Your task to perform on an android device: Clear the shopping cart on bestbuy. Image 0: 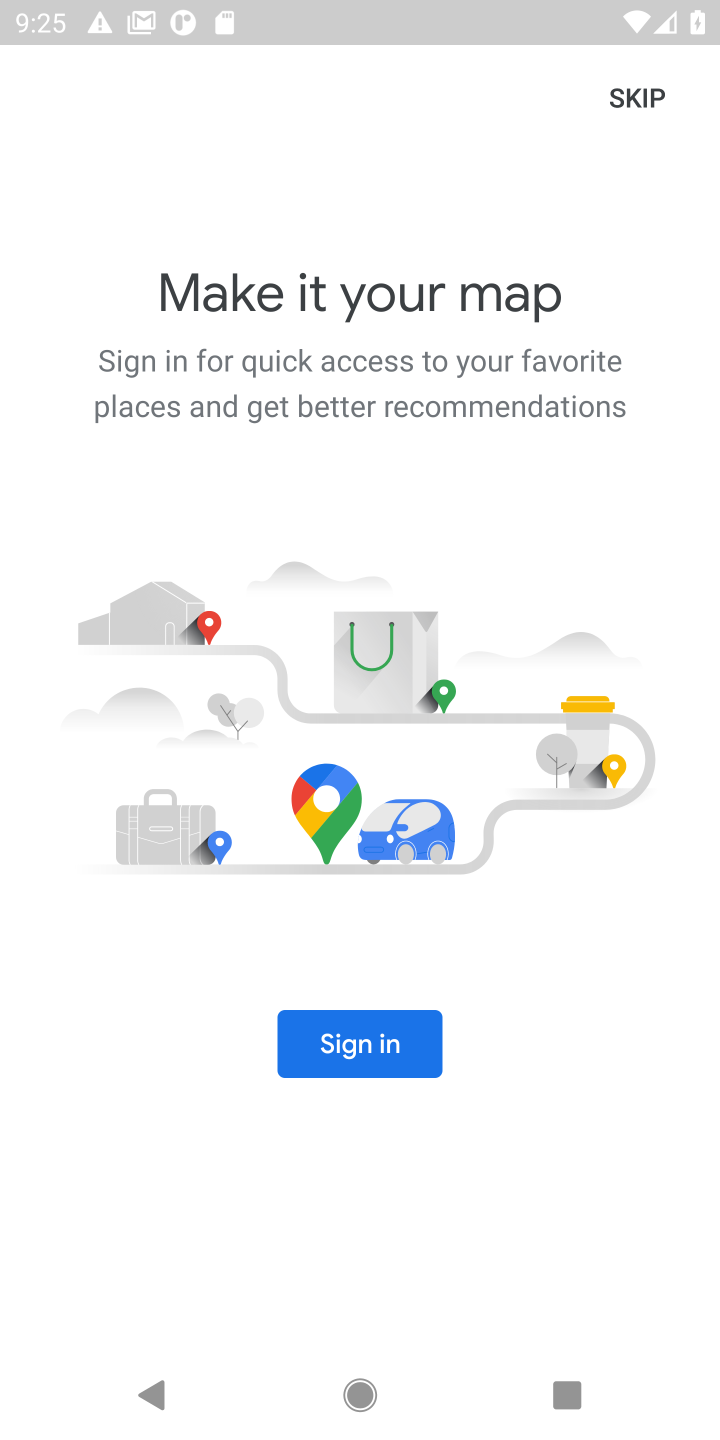
Step 0: press home button
Your task to perform on an android device: Clear the shopping cart on bestbuy. Image 1: 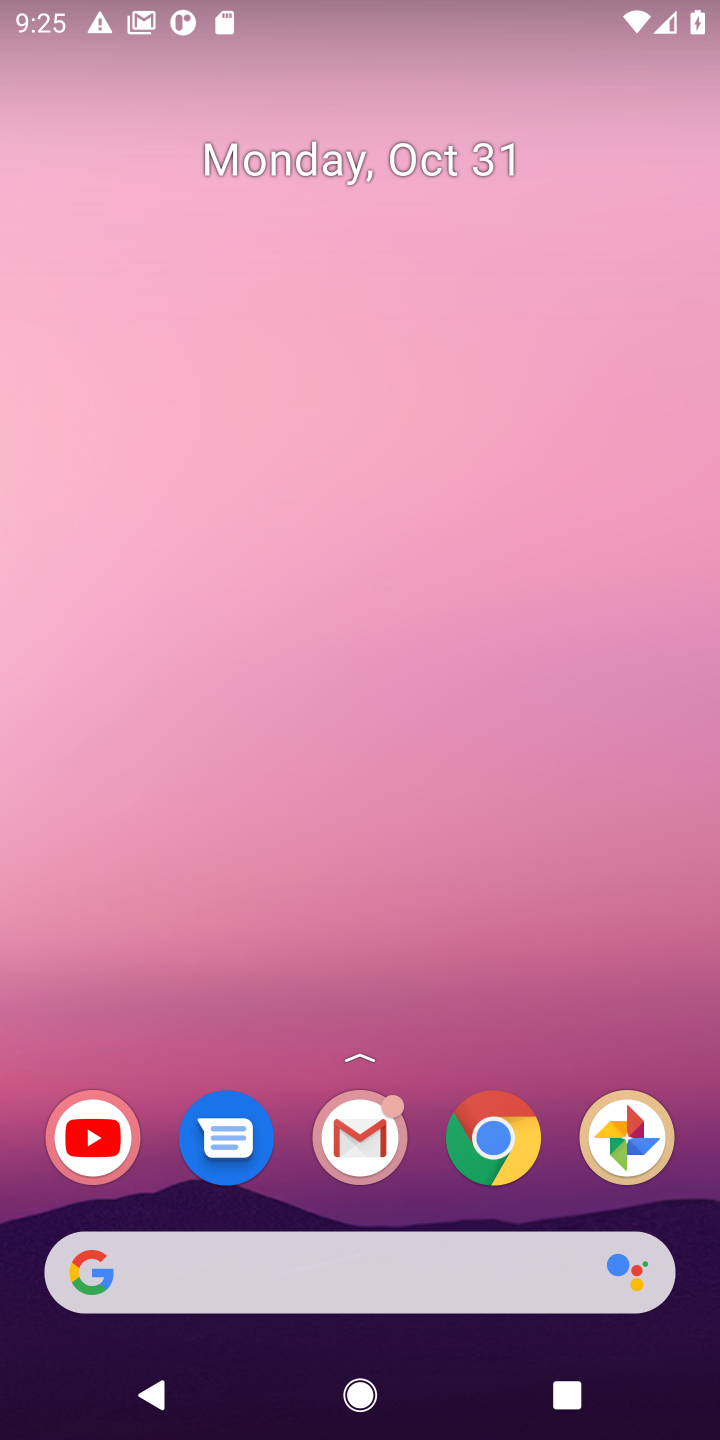
Step 1: drag from (494, 1376) to (454, 69)
Your task to perform on an android device: Clear the shopping cart on bestbuy. Image 2: 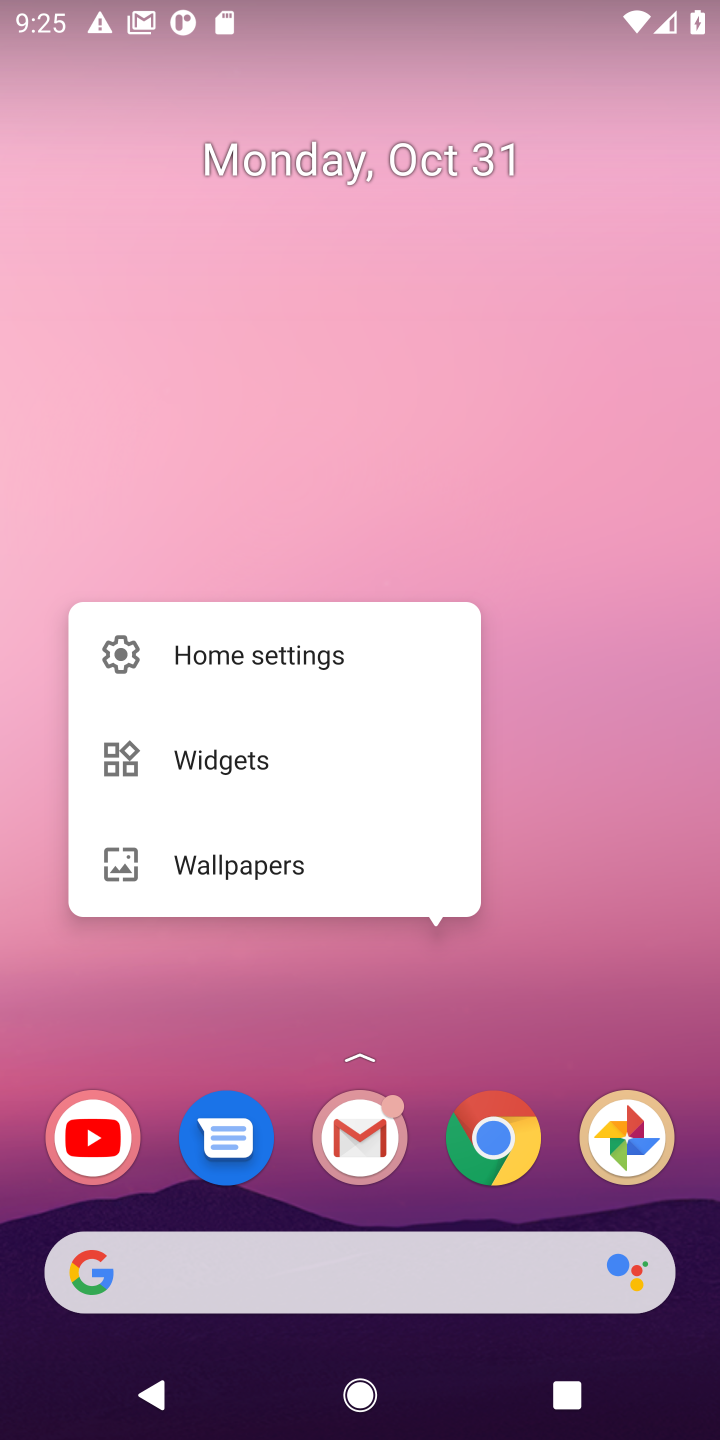
Step 2: click (510, 509)
Your task to perform on an android device: Clear the shopping cart on bestbuy. Image 3: 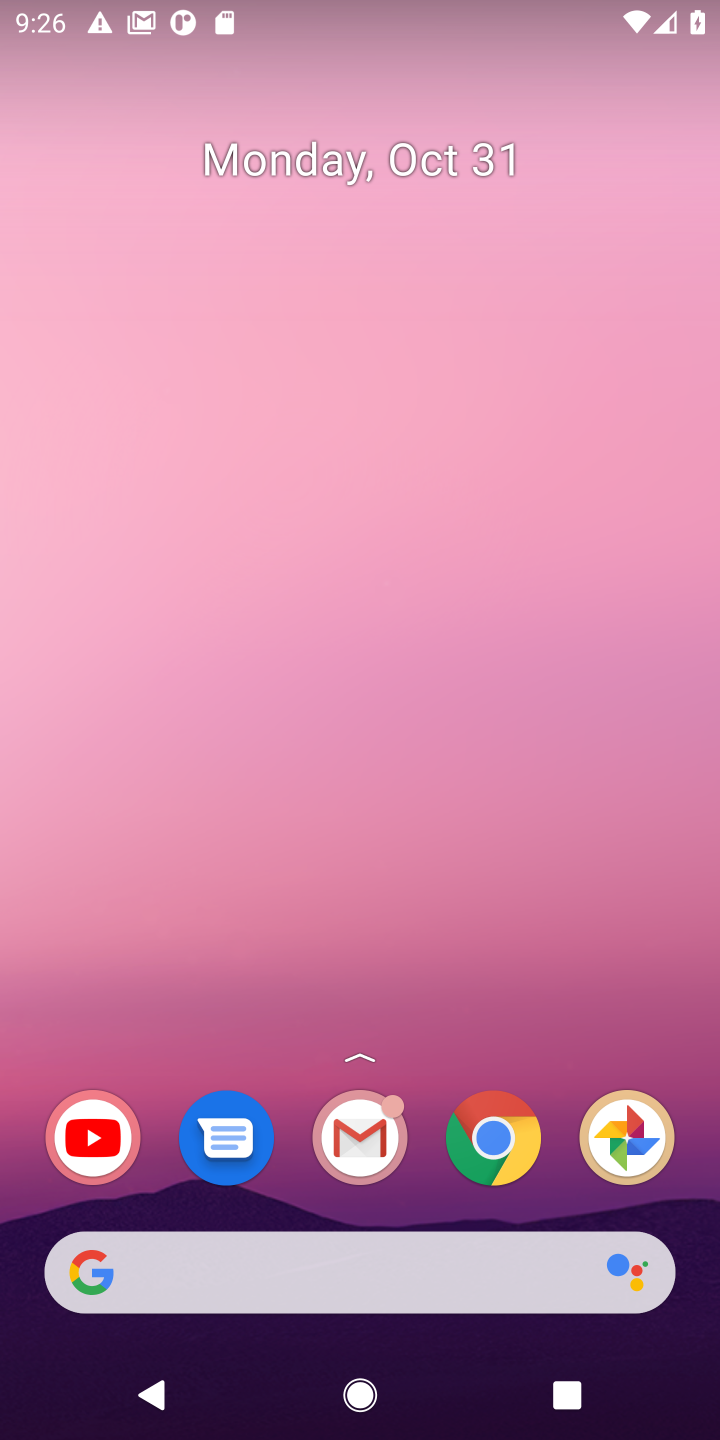
Step 3: drag from (428, 1201) to (492, 173)
Your task to perform on an android device: Clear the shopping cart on bestbuy. Image 4: 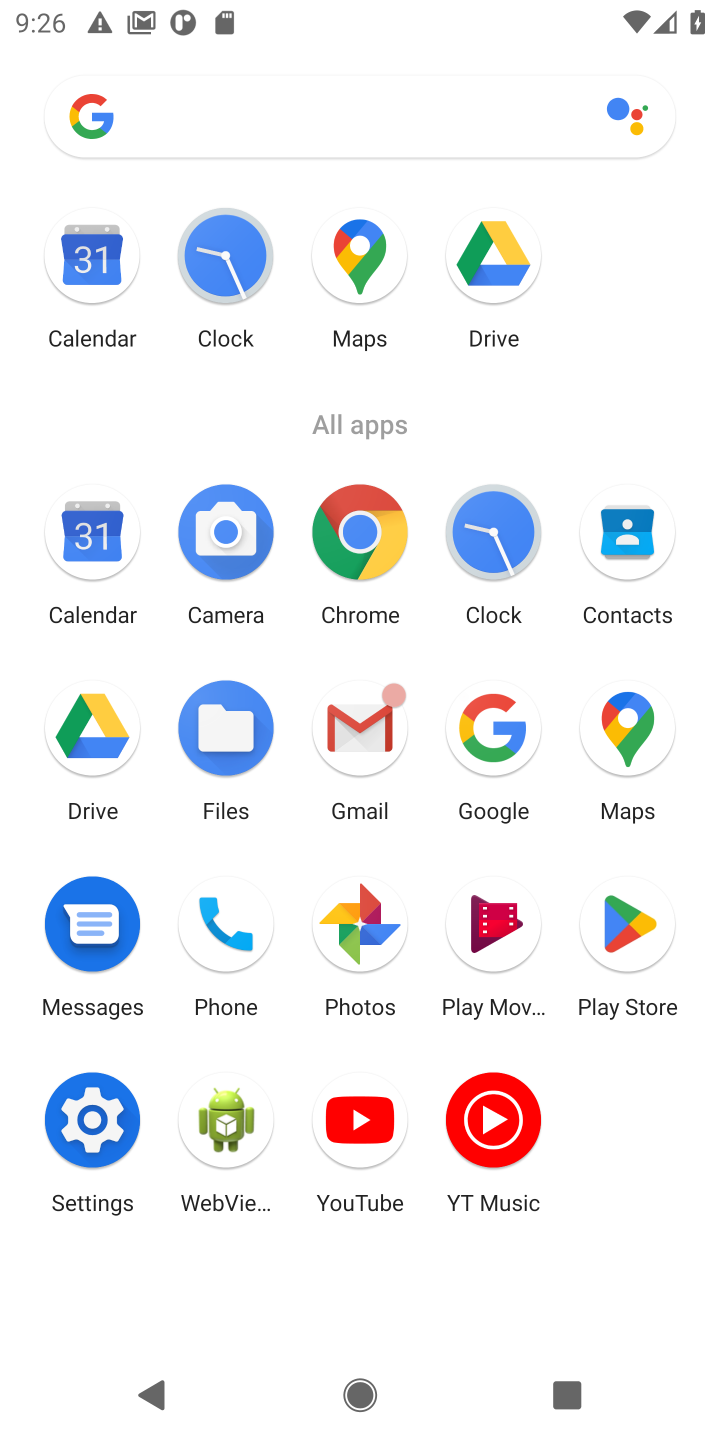
Step 4: click (354, 541)
Your task to perform on an android device: Clear the shopping cart on bestbuy. Image 5: 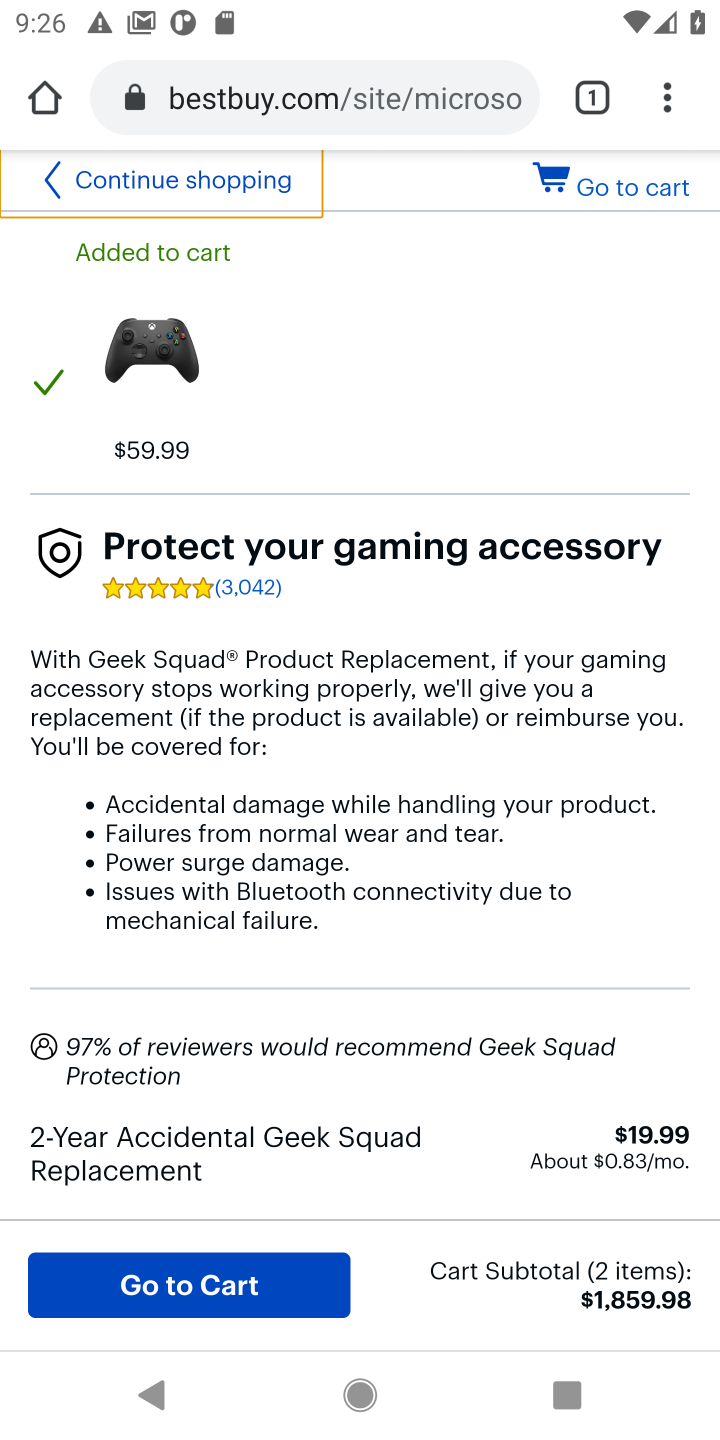
Step 5: drag from (488, 354) to (438, 914)
Your task to perform on an android device: Clear the shopping cart on bestbuy. Image 6: 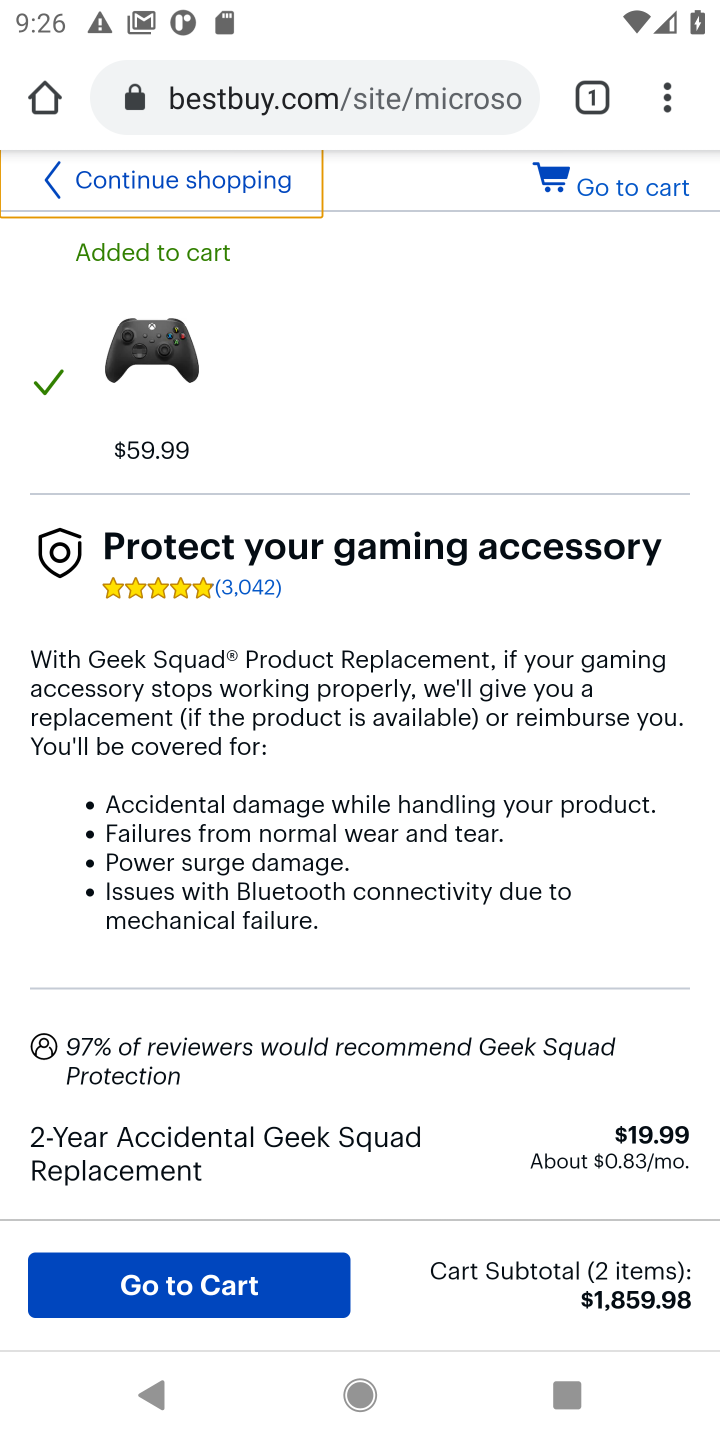
Step 6: click (631, 171)
Your task to perform on an android device: Clear the shopping cart on bestbuy. Image 7: 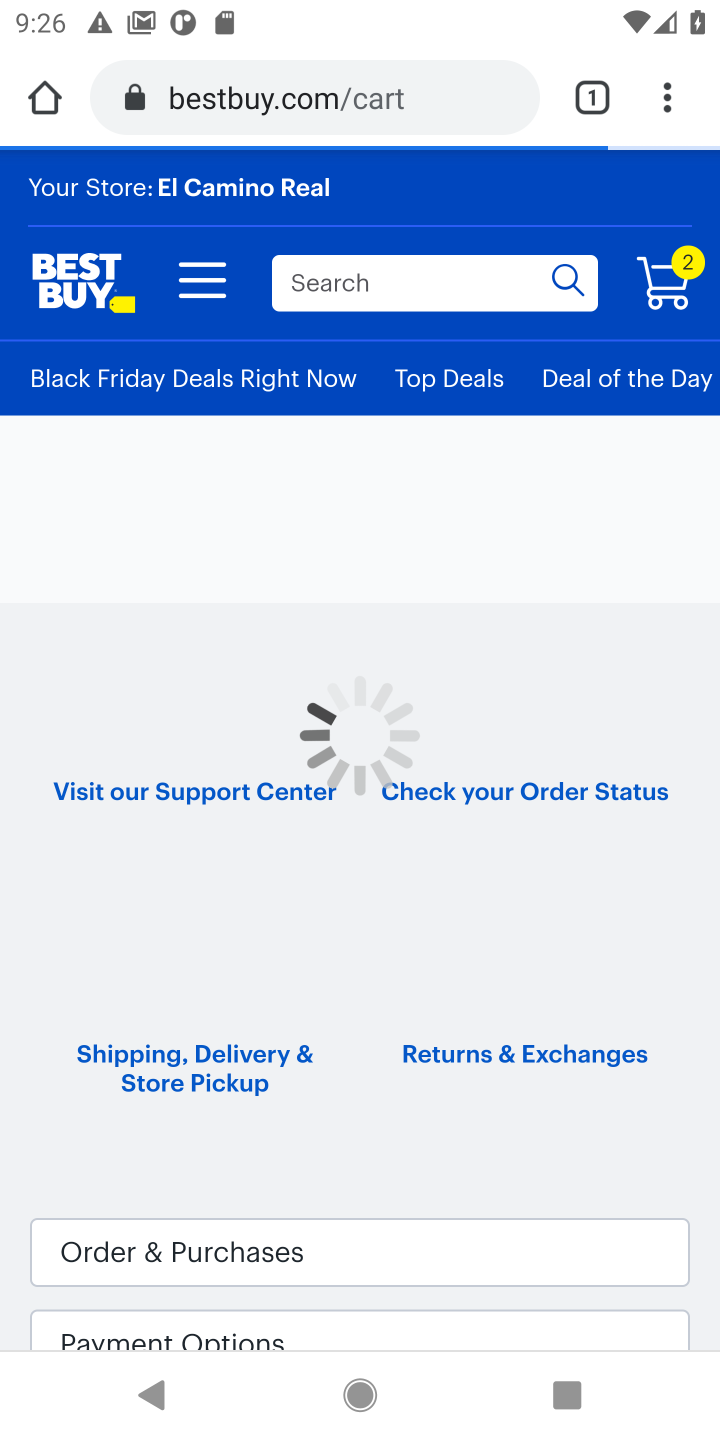
Step 7: click (670, 268)
Your task to perform on an android device: Clear the shopping cart on bestbuy. Image 8: 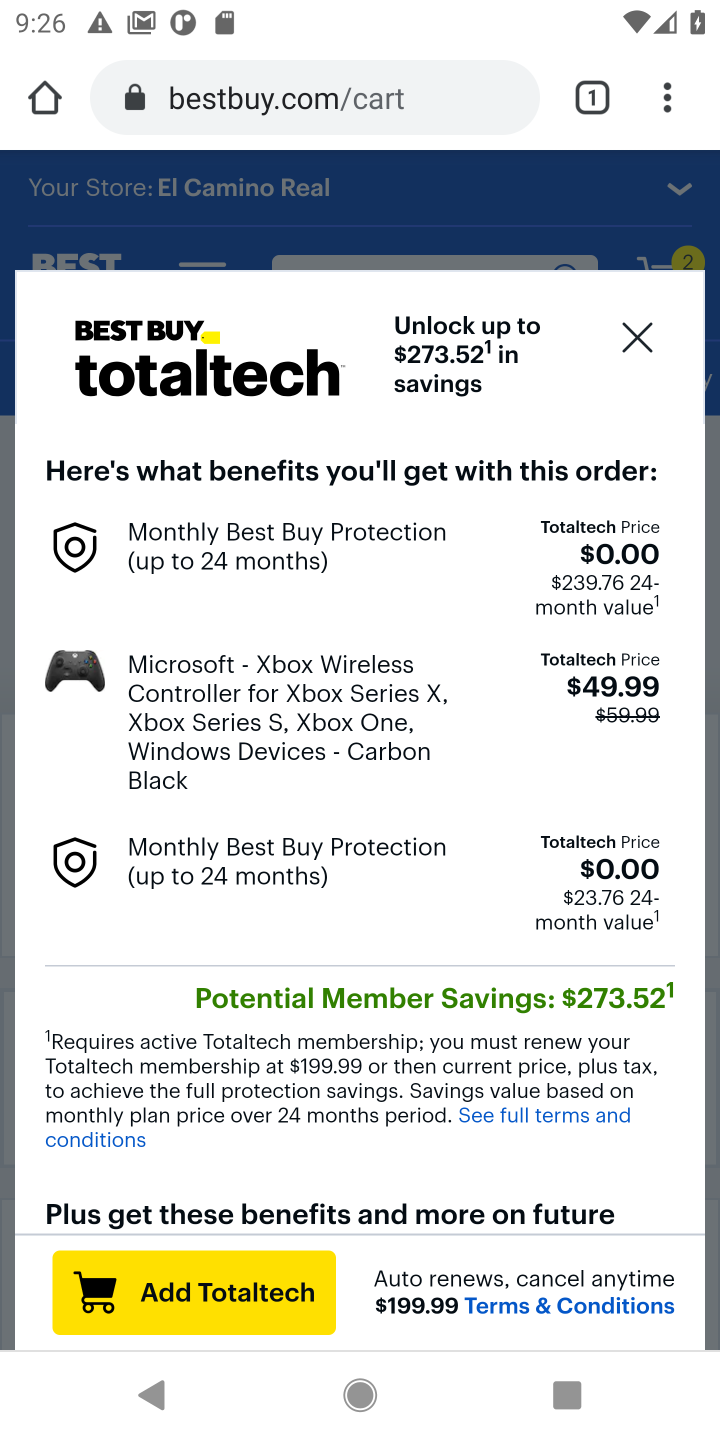
Step 8: click (631, 336)
Your task to perform on an android device: Clear the shopping cart on bestbuy. Image 9: 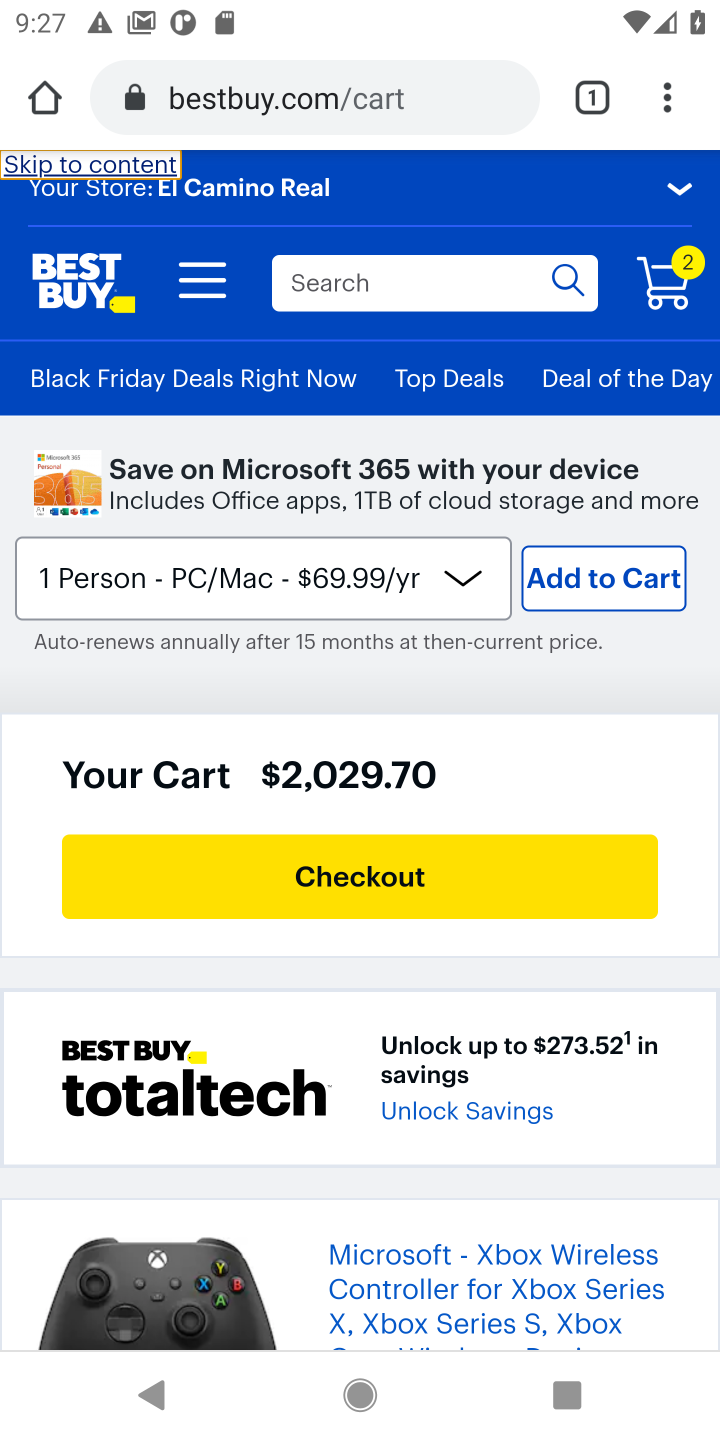
Step 9: drag from (454, 988) to (433, 420)
Your task to perform on an android device: Clear the shopping cart on bestbuy. Image 10: 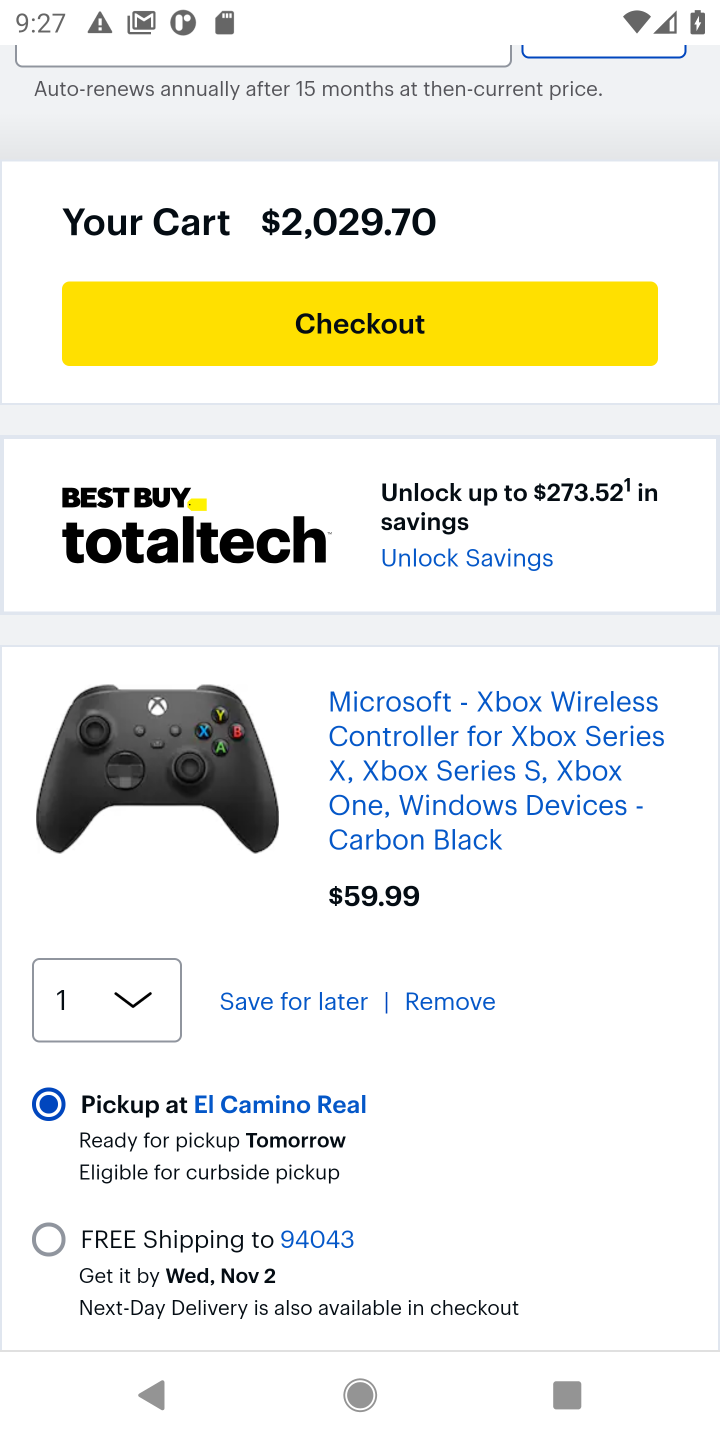
Step 10: drag from (474, 996) to (388, 211)
Your task to perform on an android device: Clear the shopping cart on bestbuy. Image 11: 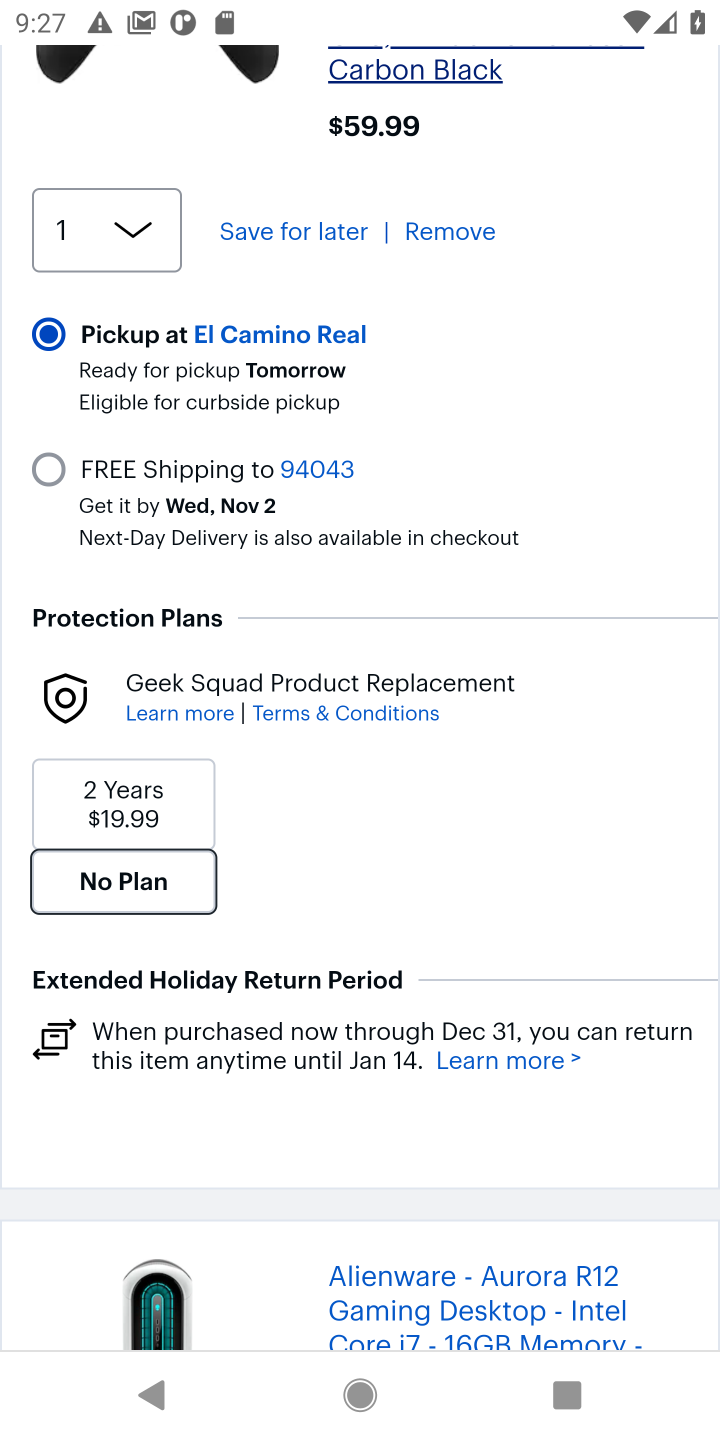
Step 11: drag from (381, 1019) to (372, 1201)
Your task to perform on an android device: Clear the shopping cart on bestbuy. Image 12: 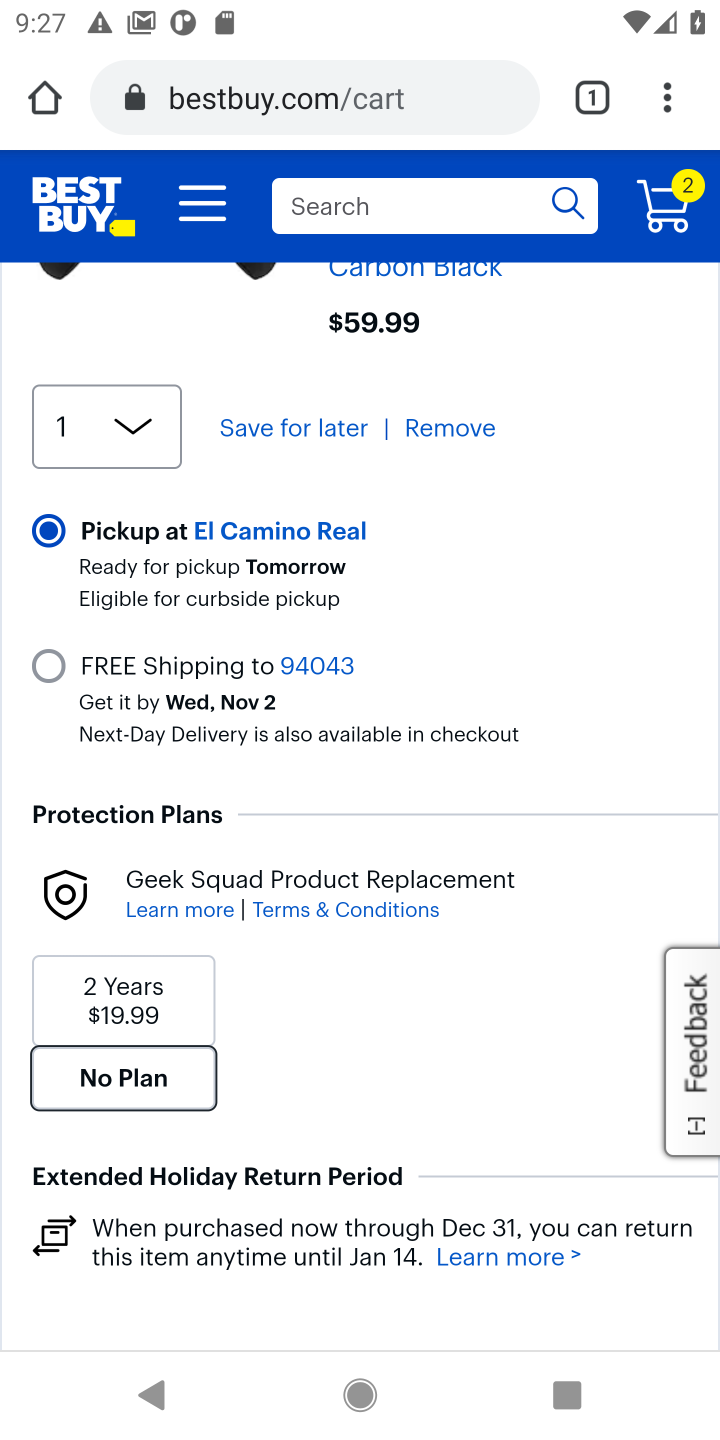
Step 12: drag from (450, 488) to (472, 1186)
Your task to perform on an android device: Clear the shopping cart on bestbuy. Image 13: 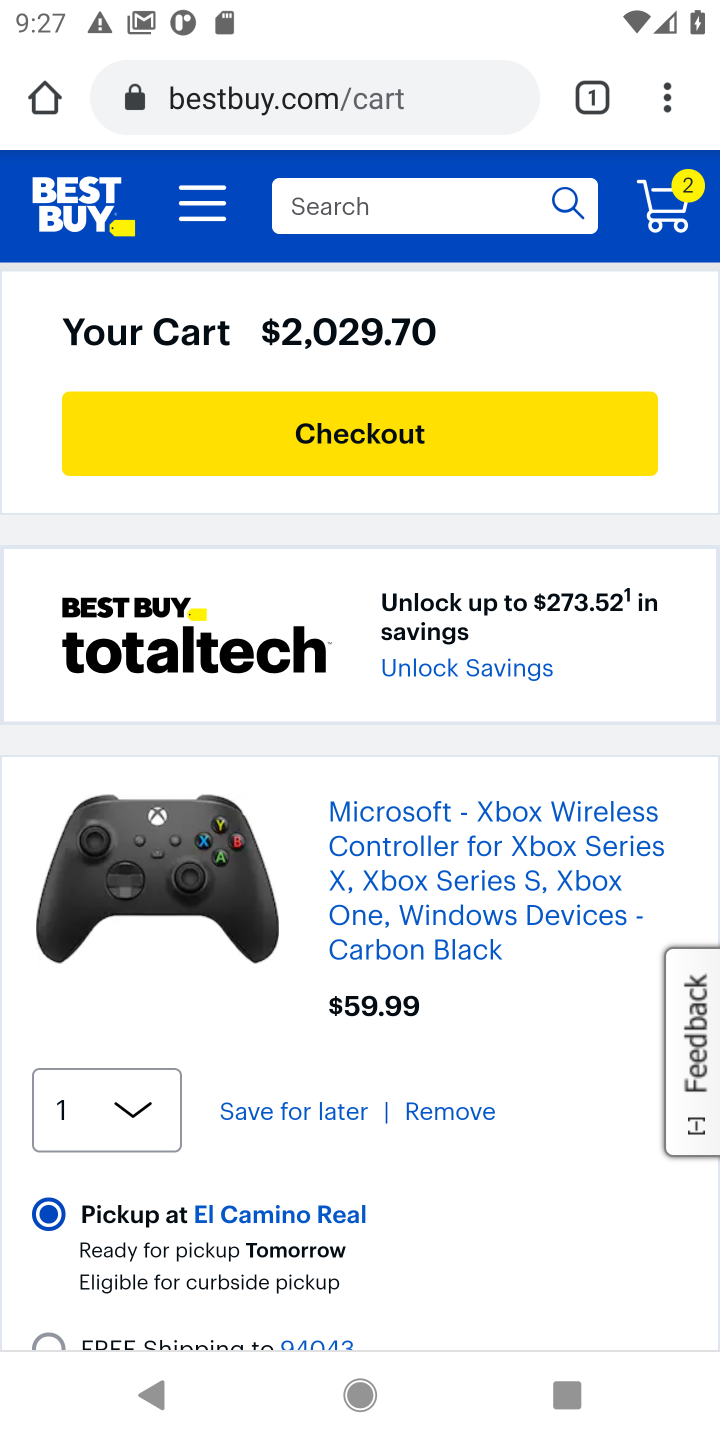
Step 13: drag from (497, 1072) to (512, 517)
Your task to perform on an android device: Clear the shopping cart on bestbuy. Image 14: 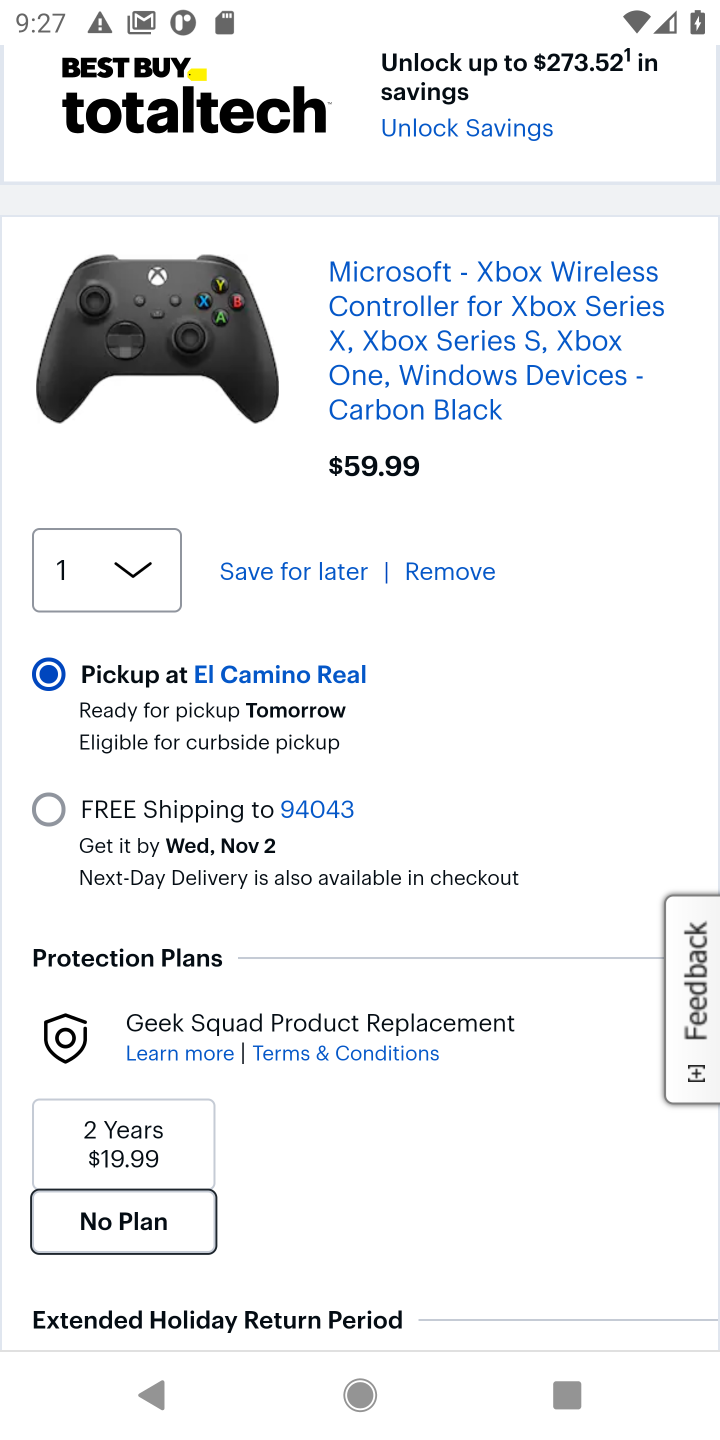
Step 14: drag from (418, 1152) to (394, 471)
Your task to perform on an android device: Clear the shopping cart on bestbuy. Image 15: 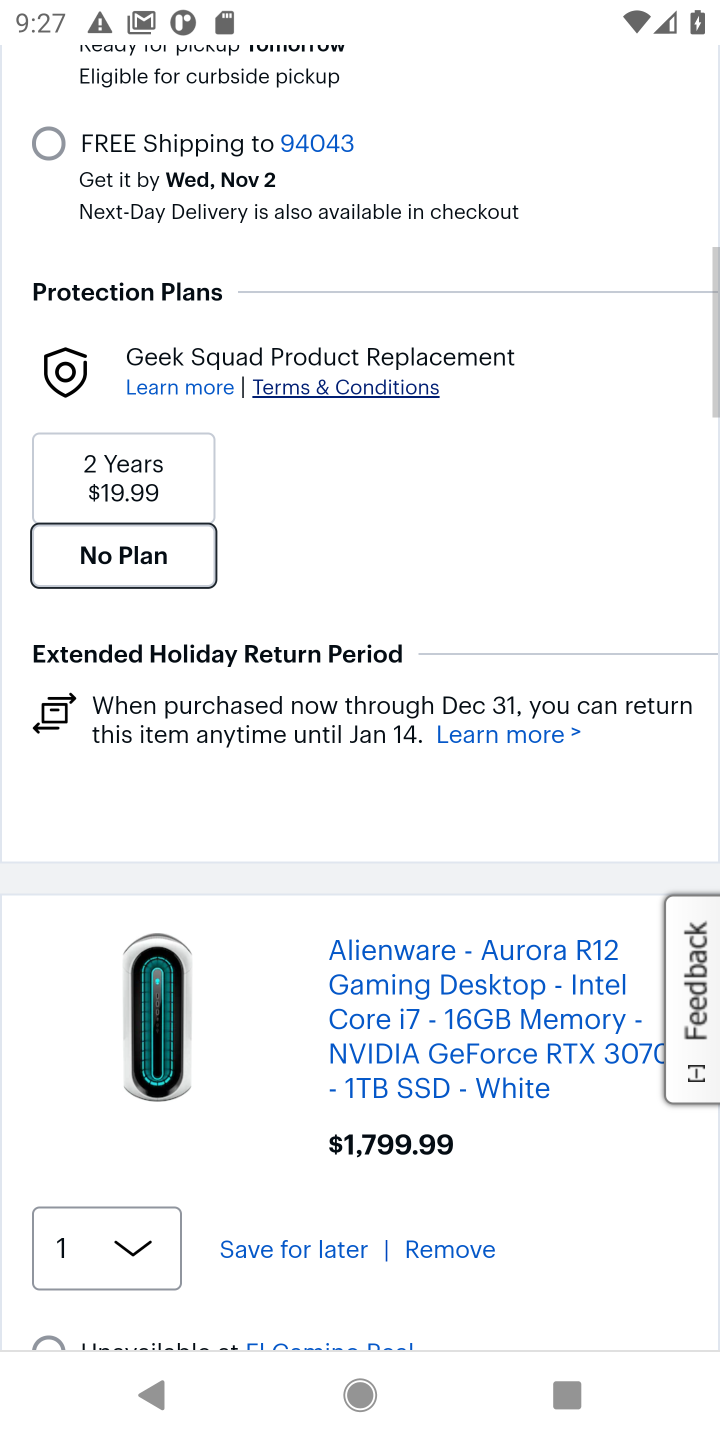
Step 15: drag from (397, 949) to (428, 335)
Your task to perform on an android device: Clear the shopping cart on bestbuy. Image 16: 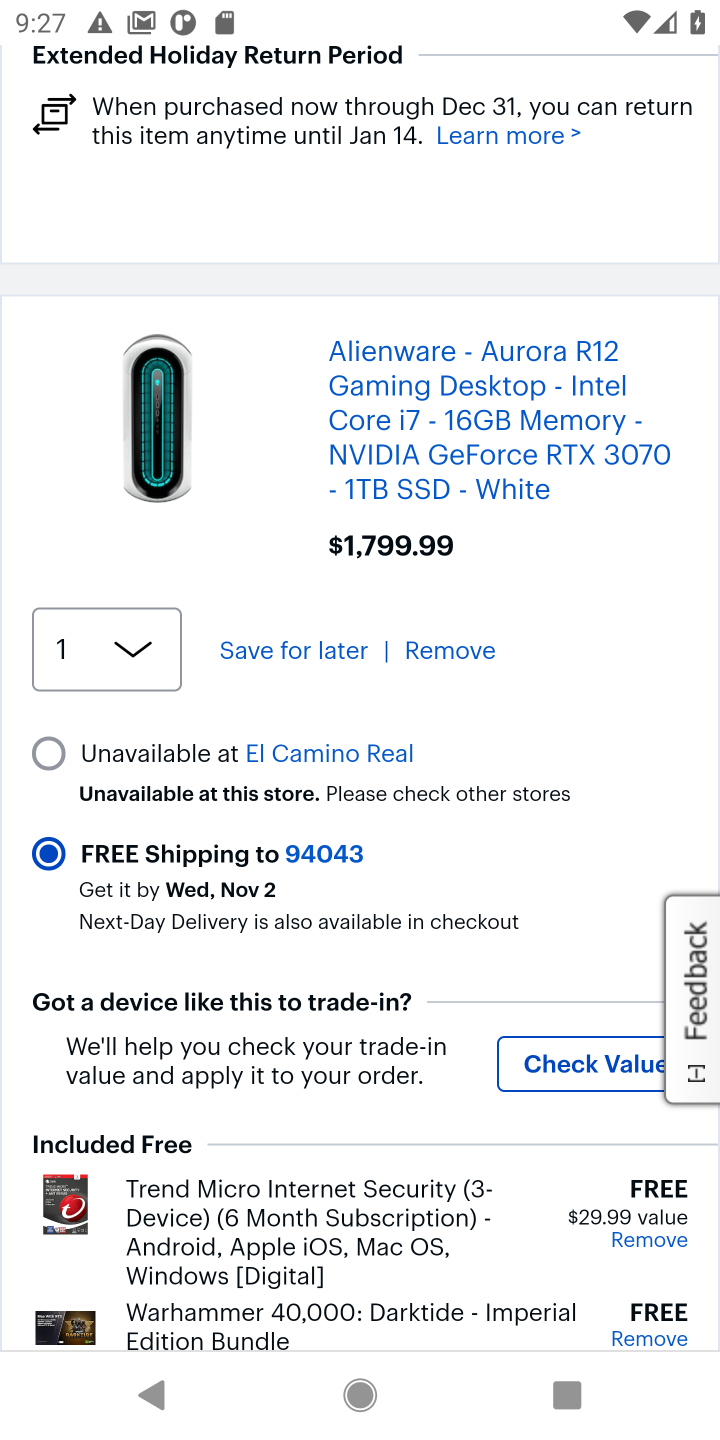
Step 16: drag from (321, 1007) to (332, 607)
Your task to perform on an android device: Clear the shopping cart on bestbuy. Image 17: 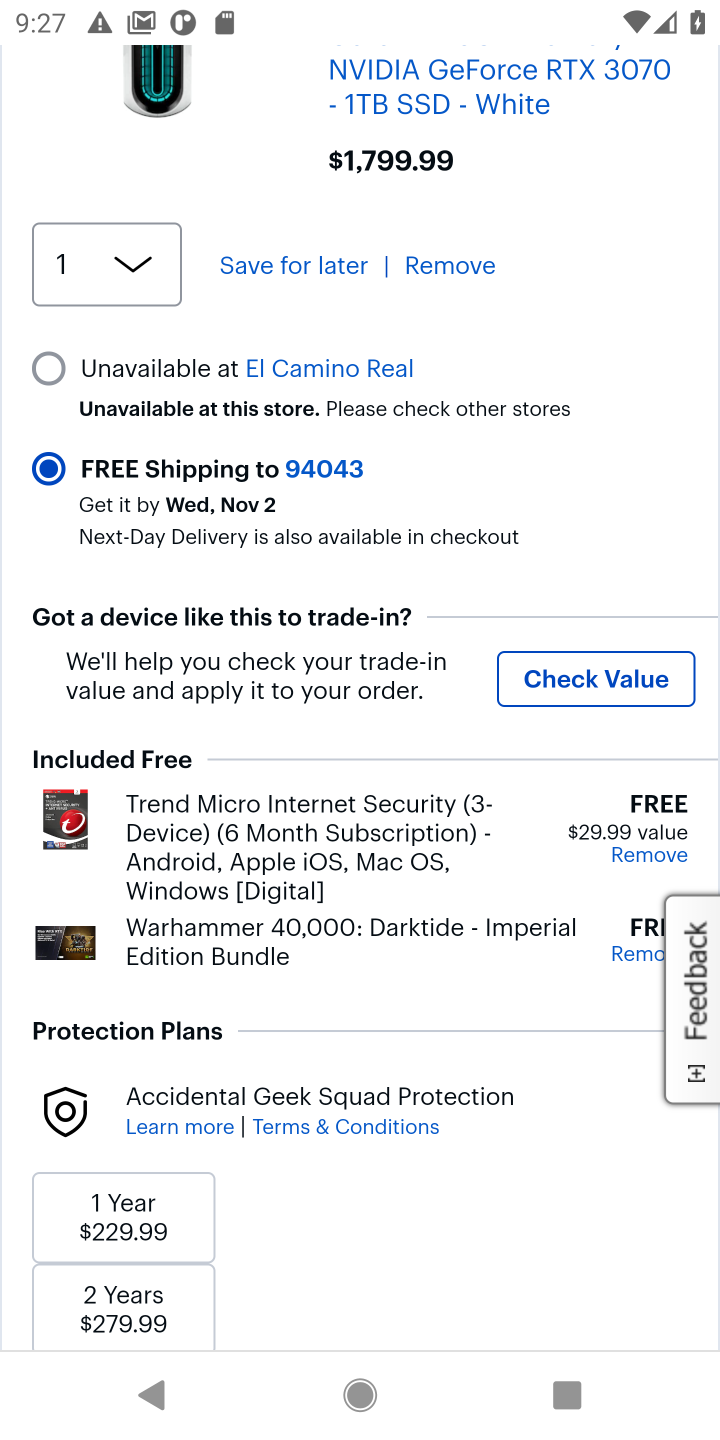
Step 17: drag from (230, 929) to (344, 314)
Your task to perform on an android device: Clear the shopping cart on bestbuy. Image 18: 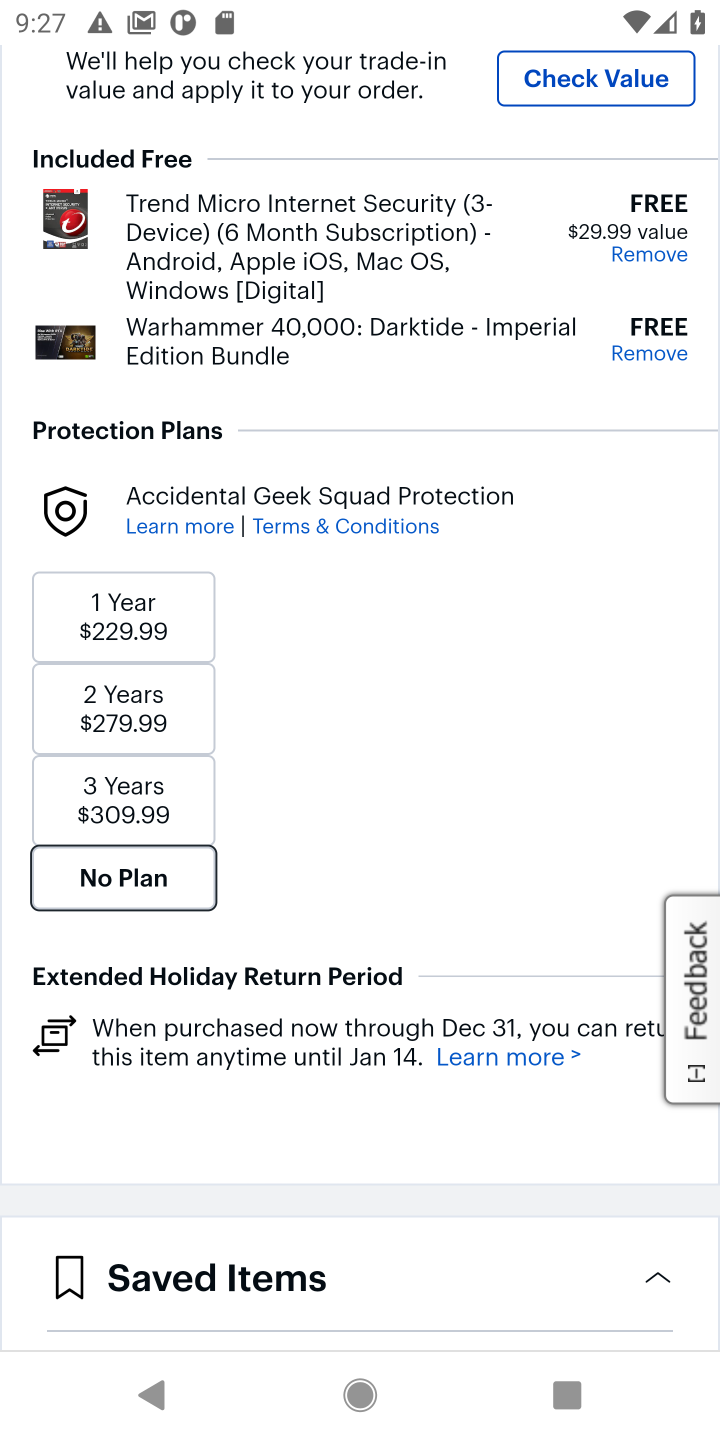
Step 18: drag from (281, 1104) to (436, 285)
Your task to perform on an android device: Clear the shopping cart on bestbuy. Image 19: 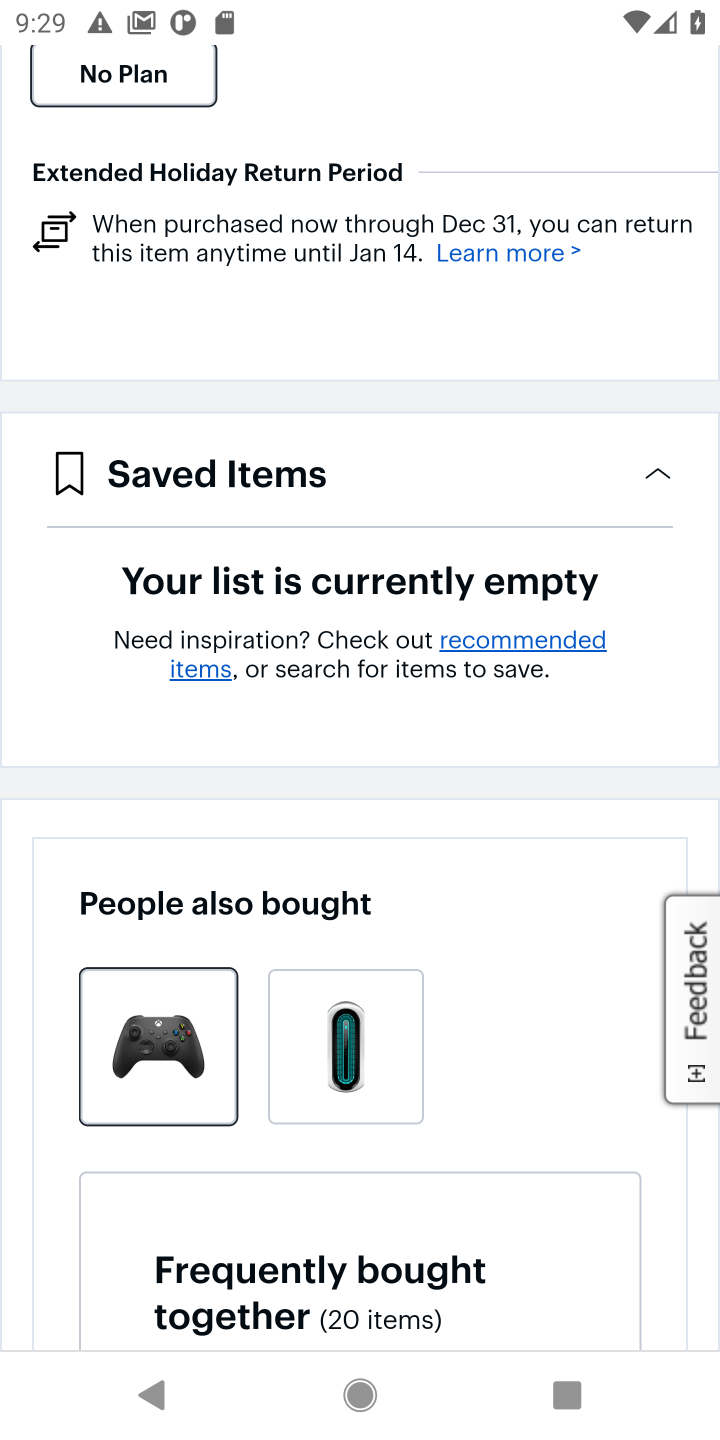
Step 19: drag from (404, 439) to (450, 1266)
Your task to perform on an android device: Clear the shopping cart on bestbuy. Image 20: 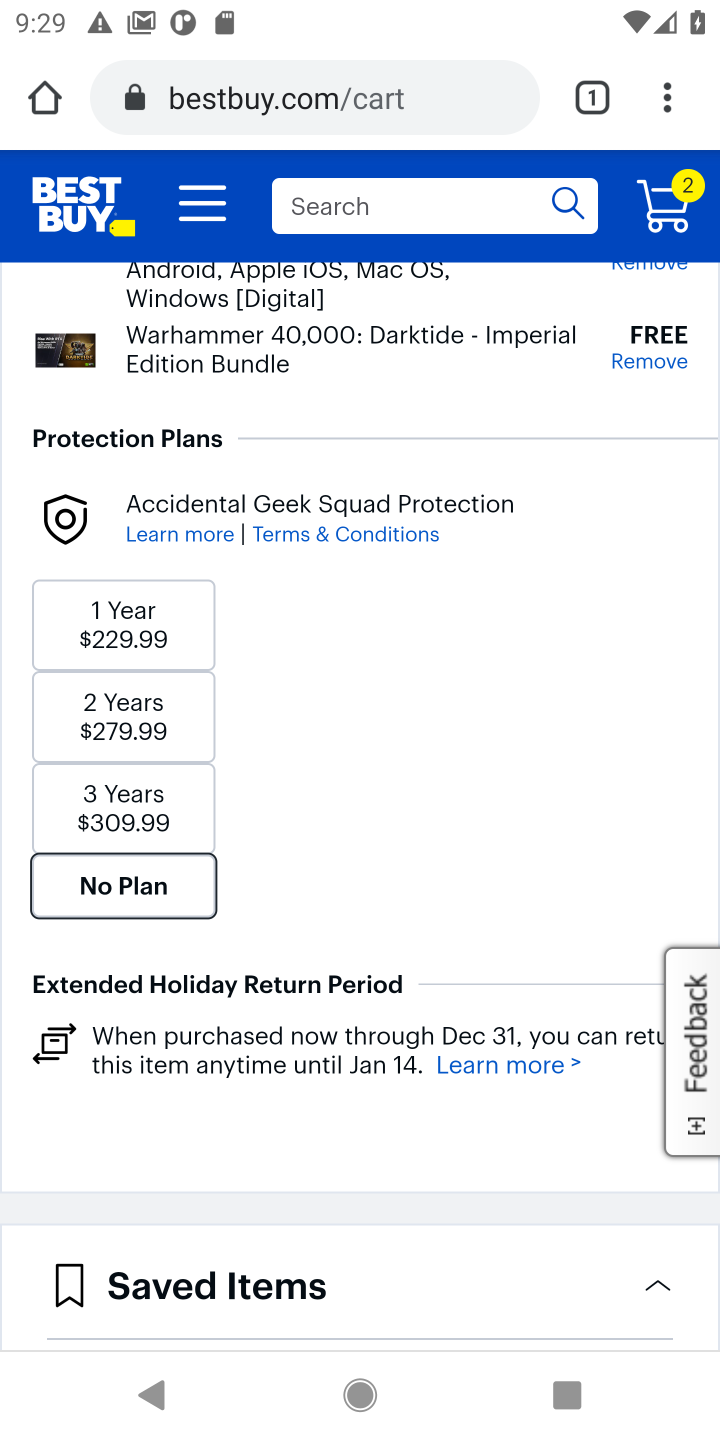
Step 20: drag from (512, 585) to (537, 1401)
Your task to perform on an android device: Clear the shopping cart on bestbuy. Image 21: 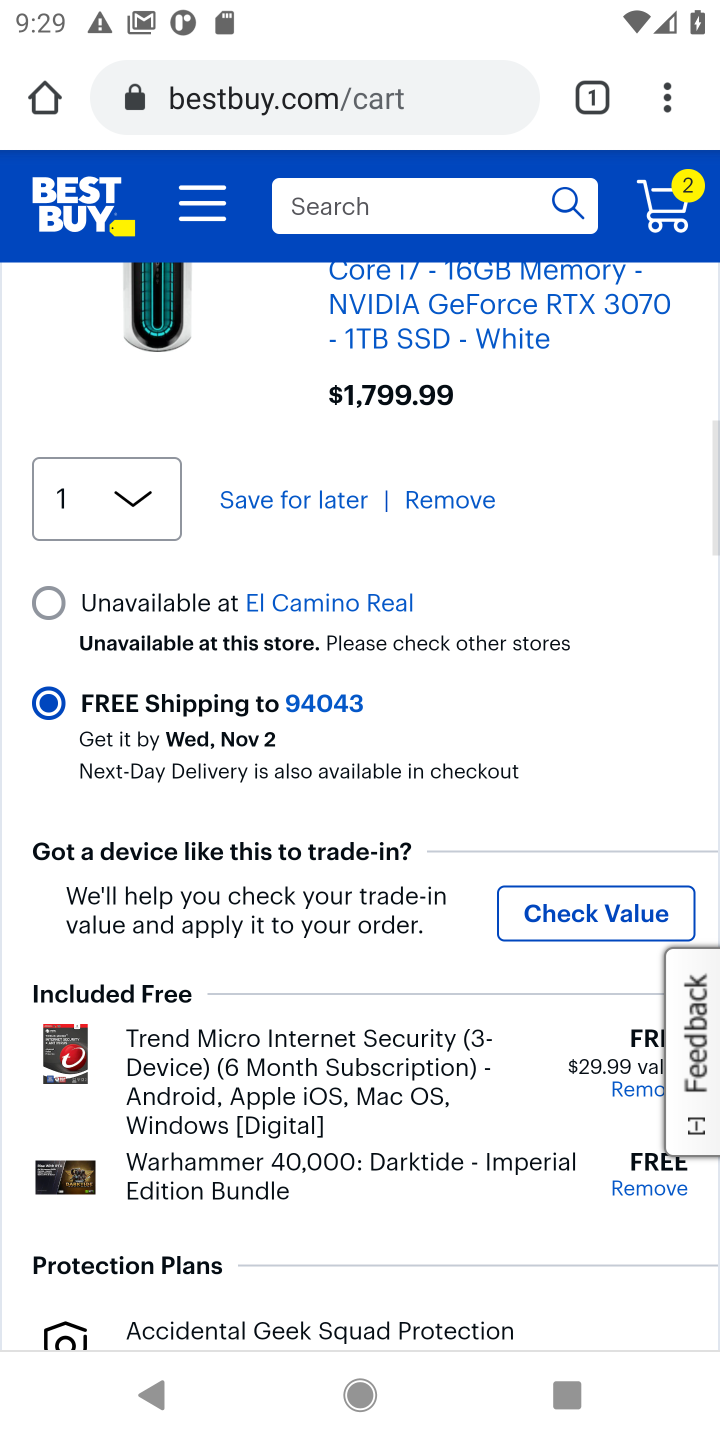
Step 21: drag from (391, 1143) to (395, 1306)
Your task to perform on an android device: Clear the shopping cart on bestbuy. Image 22: 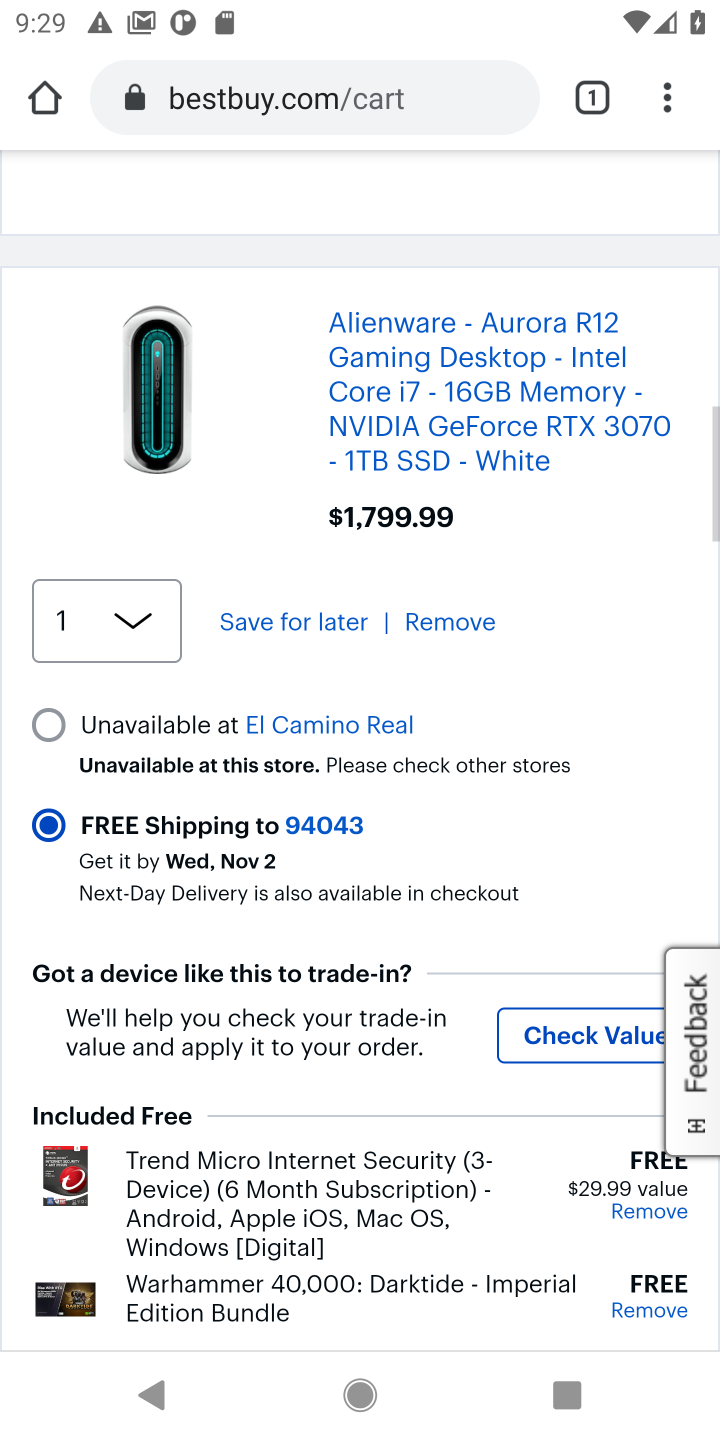
Step 22: drag from (369, 597) to (364, 1051)
Your task to perform on an android device: Clear the shopping cart on bestbuy. Image 23: 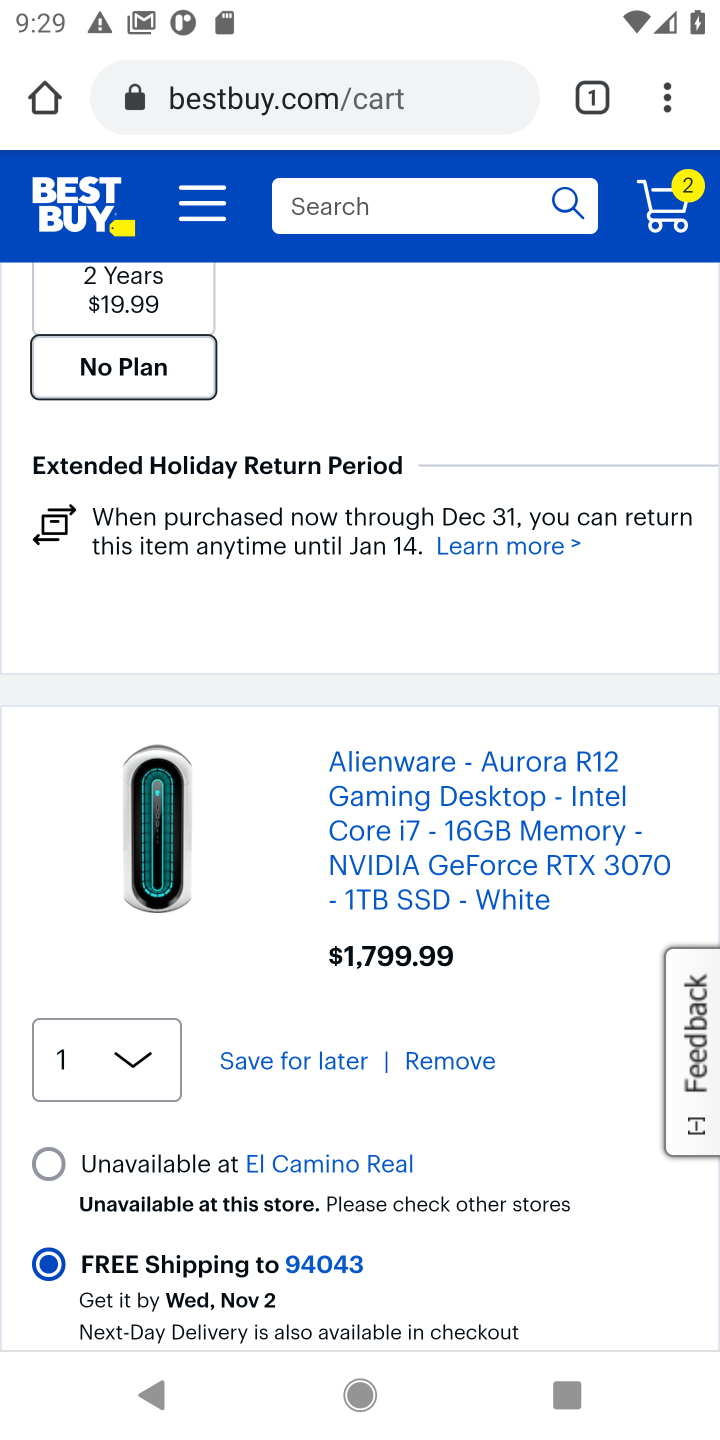
Step 23: drag from (311, 937) to (363, 403)
Your task to perform on an android device: Clear the shopping cart on bestbuy. Image 24: 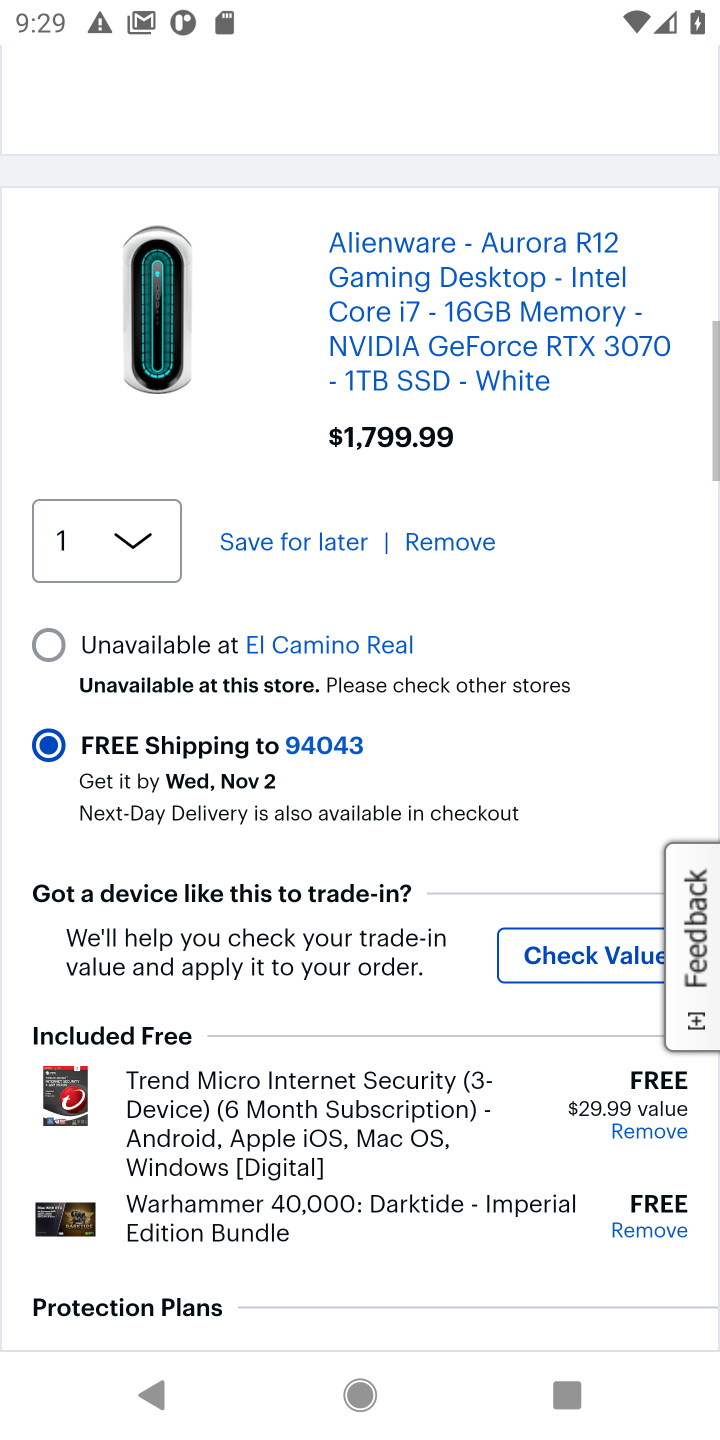
Step 24: drag from (394, 993) to (488, 290)
Your task to perform on an android device: Clear the shopping cart on bestbuy. Image 25: 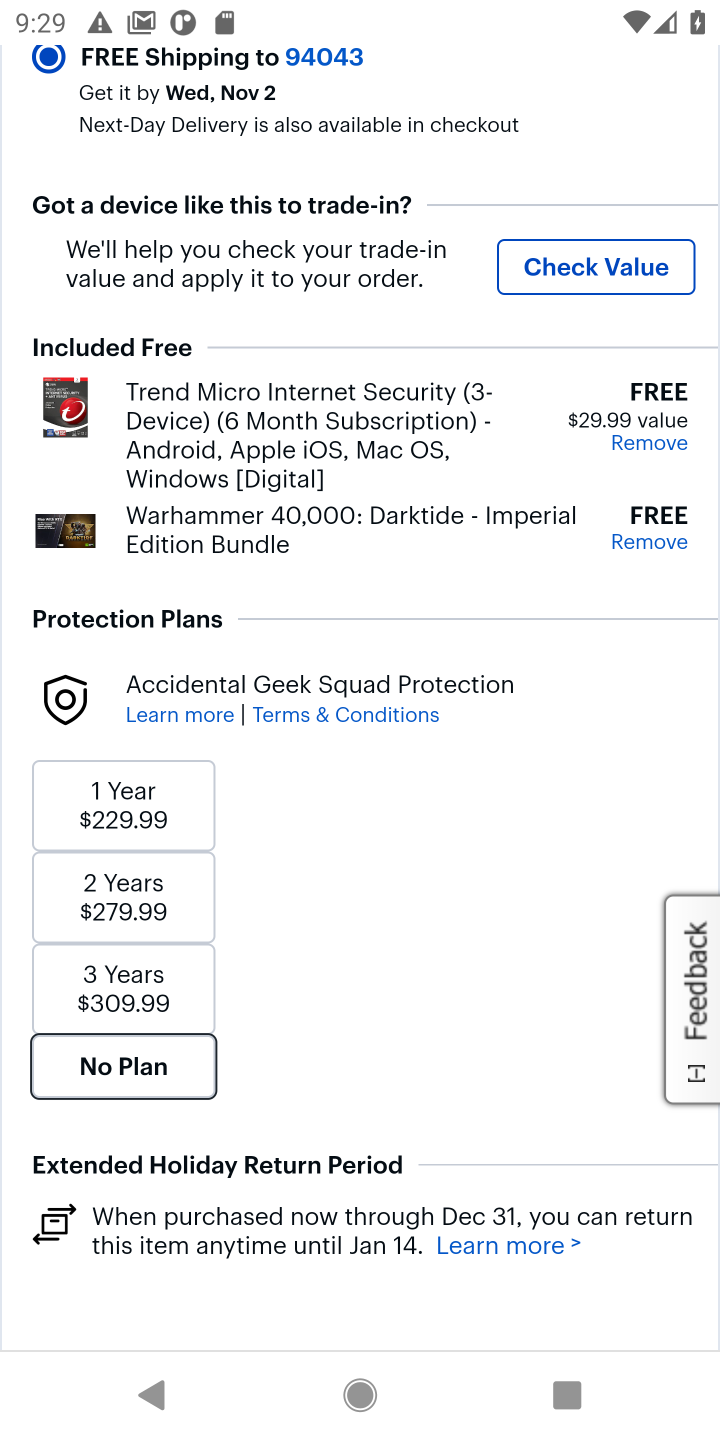
Step 25: drag from (352, 1103) to (488, 220)
Your task to perform on an android device: Clear the shopping cart on bestbuy. Image 26: 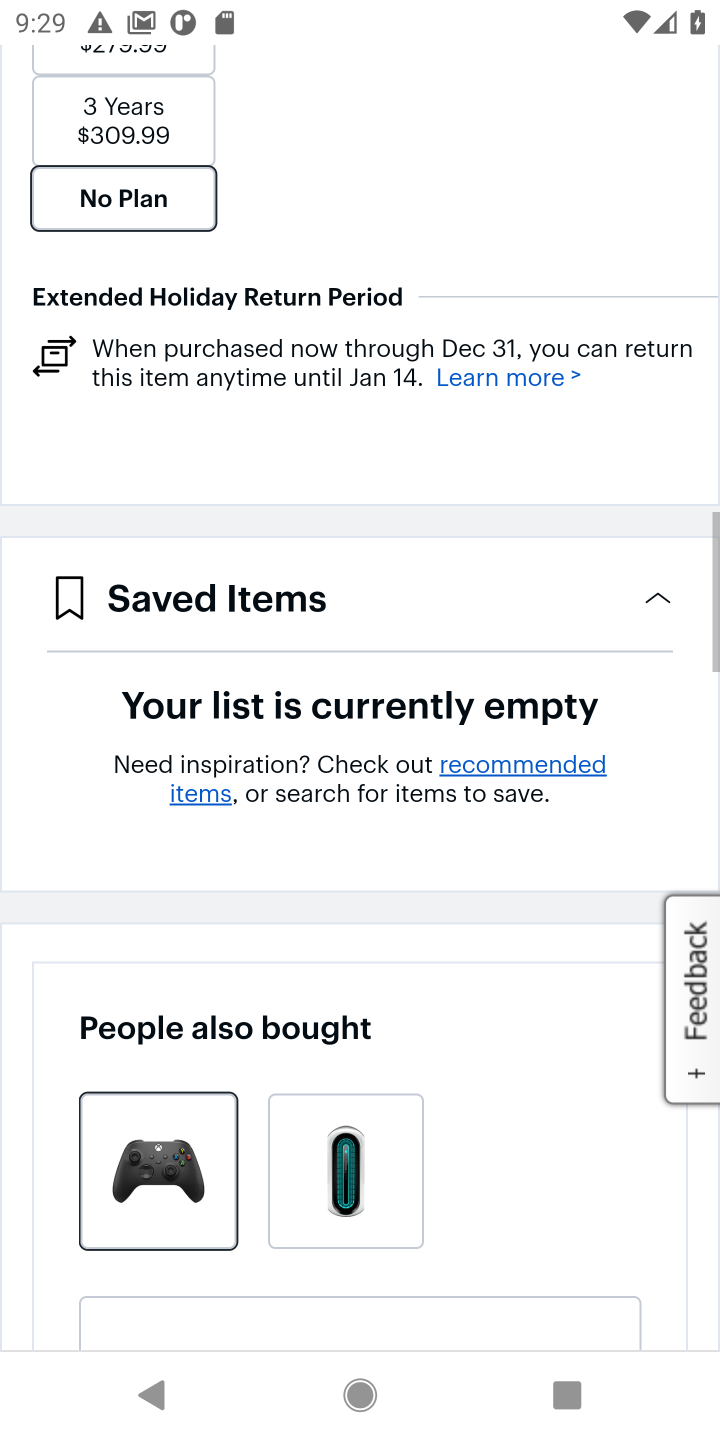
Step 26: drag from (372, 1087) to (525, 395)
Your task to perform on an android device: Clear the shopping cart on bestbuy. Image 27: 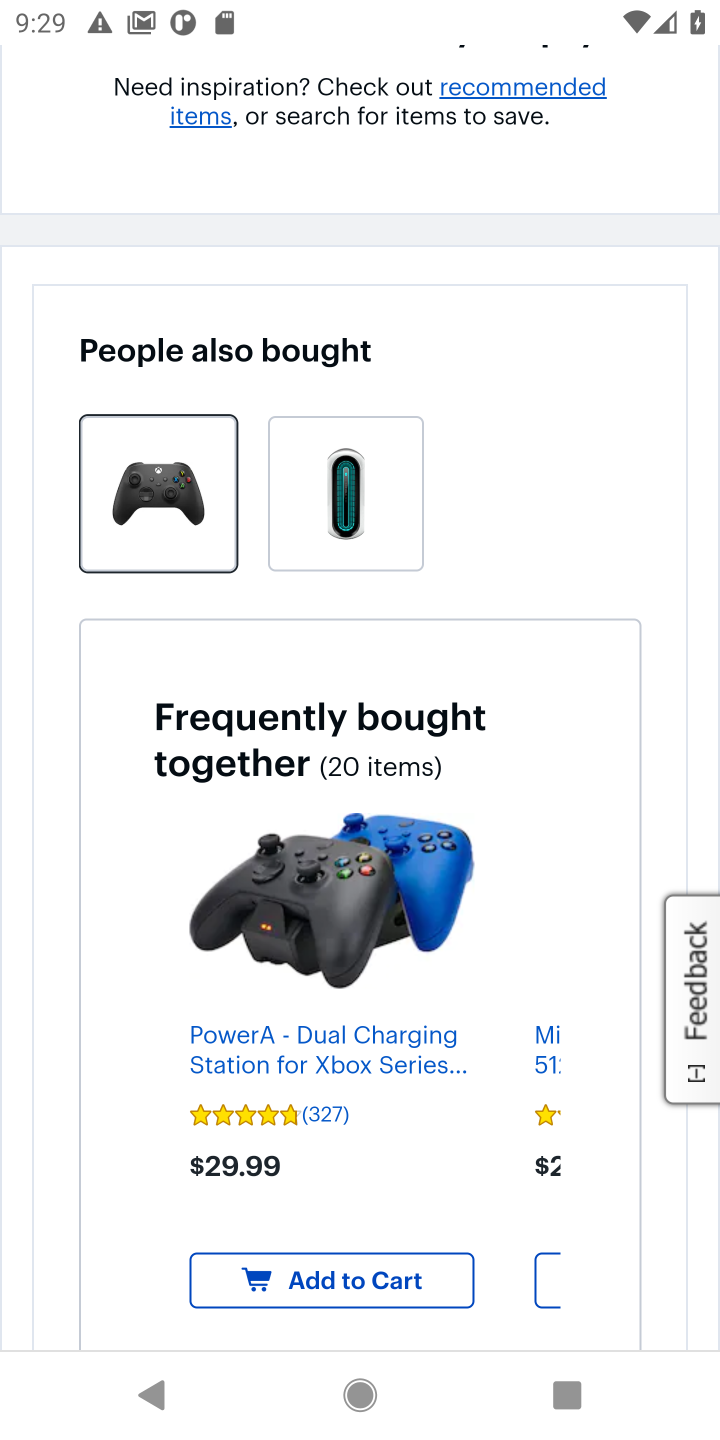
Step 27: drag from (483, 377) to (457, 1288)
Your task to perform on an android device: Clear the shopping cart on bestbuy. Image 28: 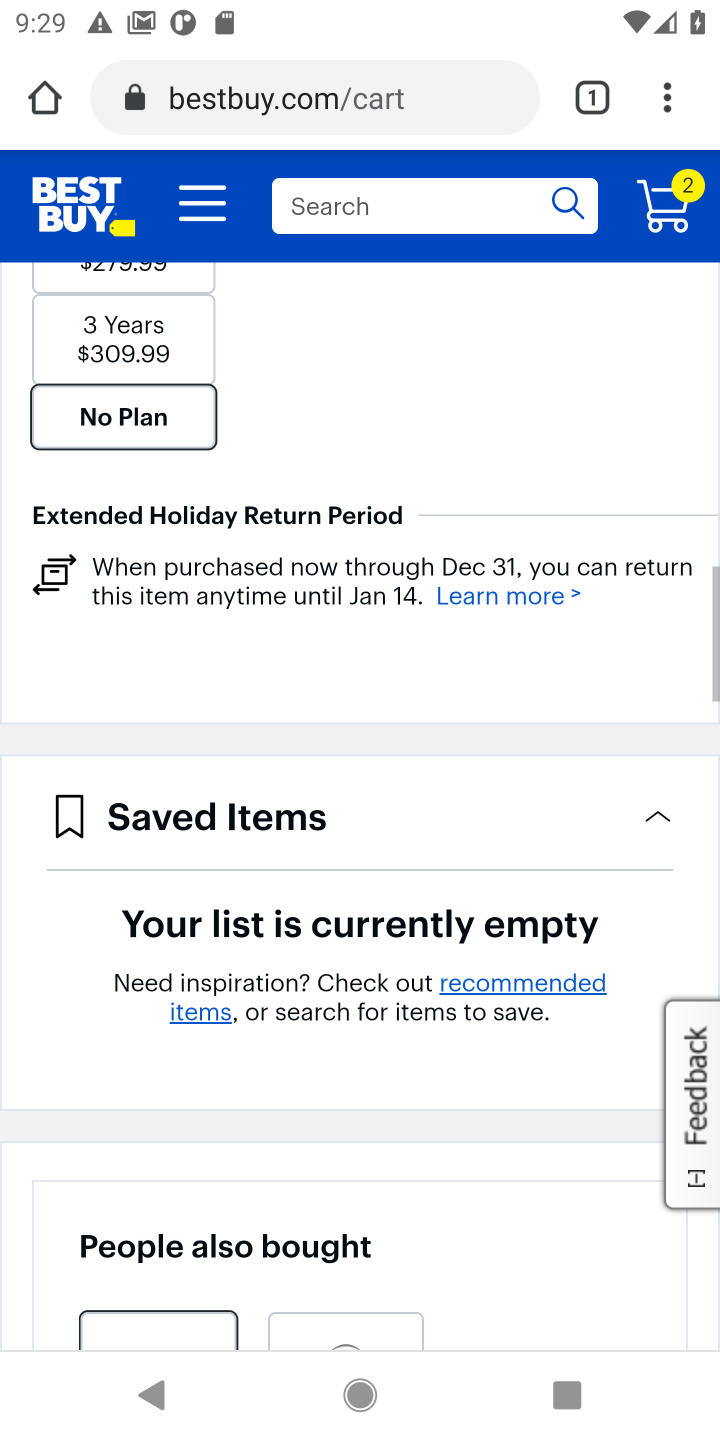
Step 28: drag from (368, 254) to (479, 1403)
Your task to perform on an android device: Clear the shopping cart on bestbuy. Image 29: 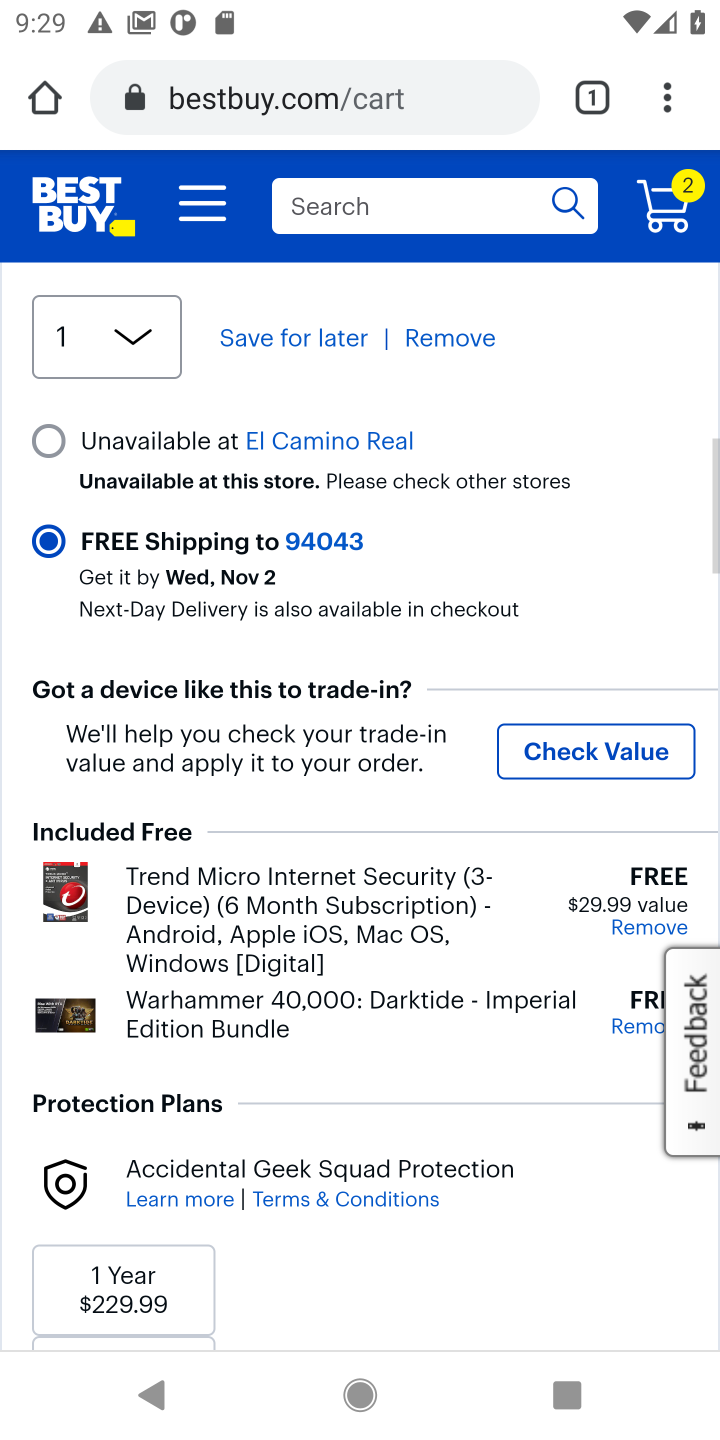
Step 29: drag from (459, 954) to (454, 560)
Your task to perform on an android device: Clear the shopping cart on bestbuy. Image 30: 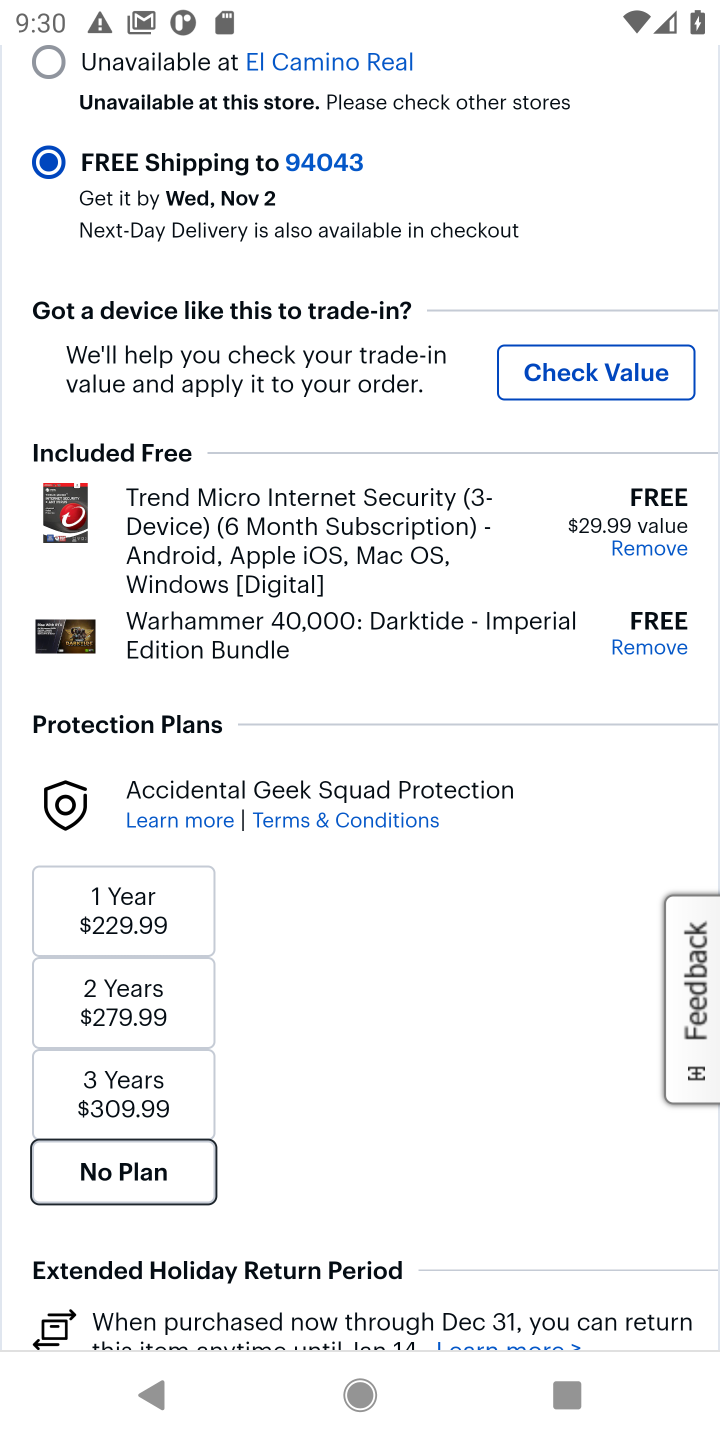
Step 30: click (649, 547)
Your task to perform on an android device: Clear the shopping cart on bestbuy. Image 31: 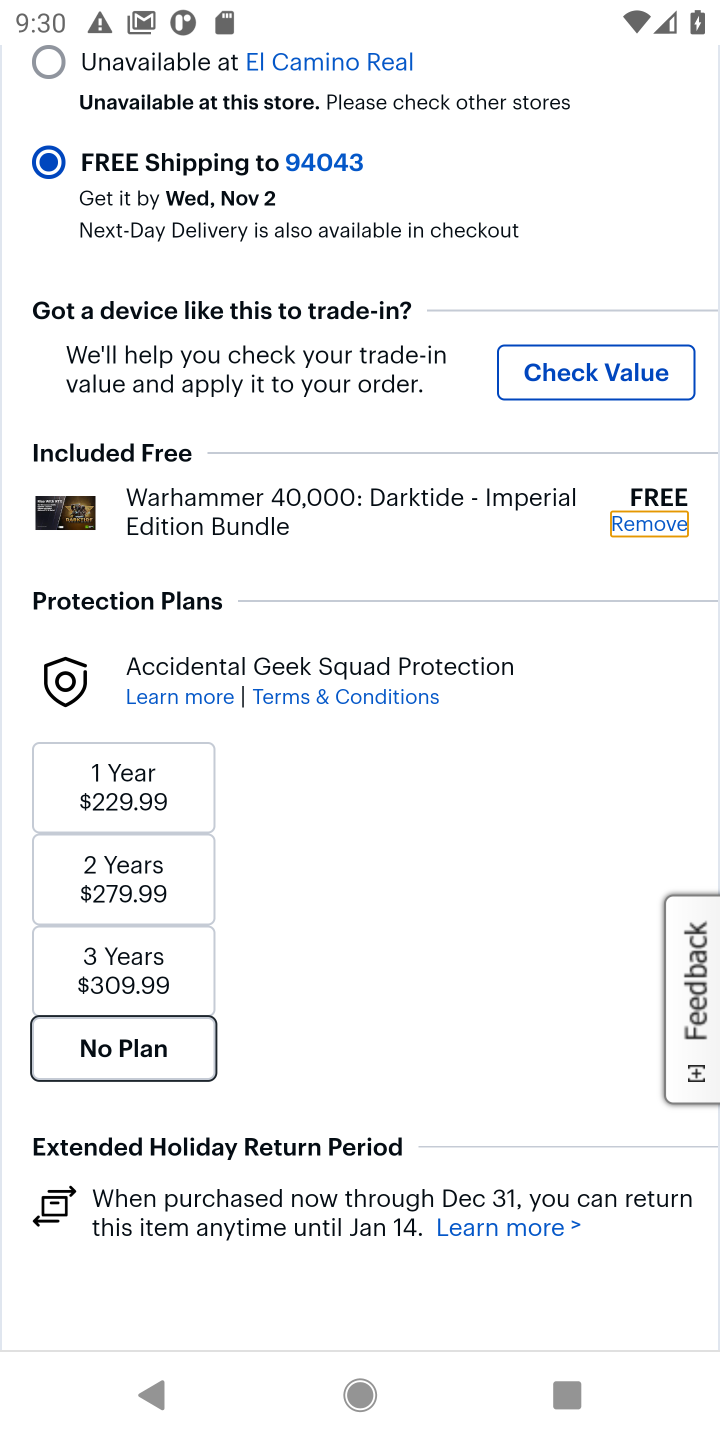
Step 31: click (656, 522)
Your task to perform on an android device: Clear the shopping cart on bestbuy. Image 32: 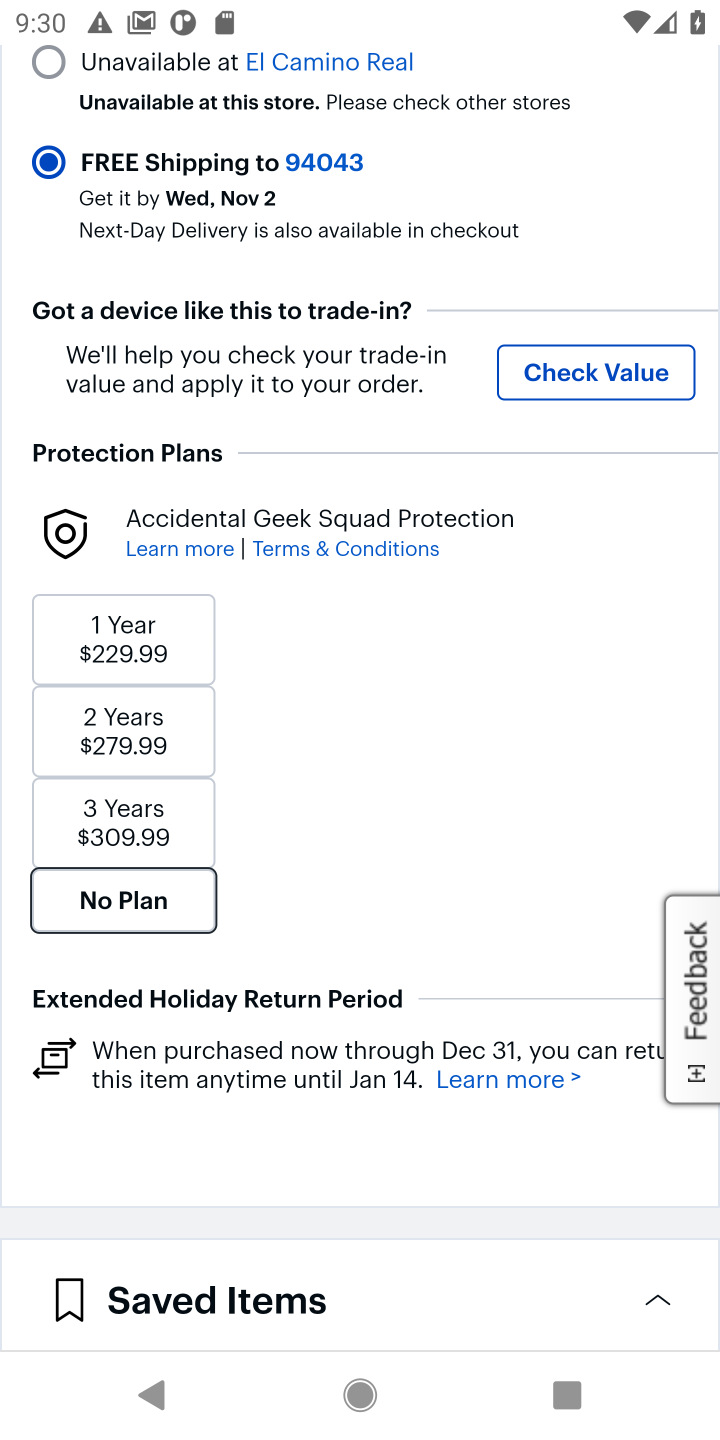
Step 32: drag from (410, 281) to (414, 980)
Your task to perform on an android device: Clear the shopping cart on bestbuy. Image 33: 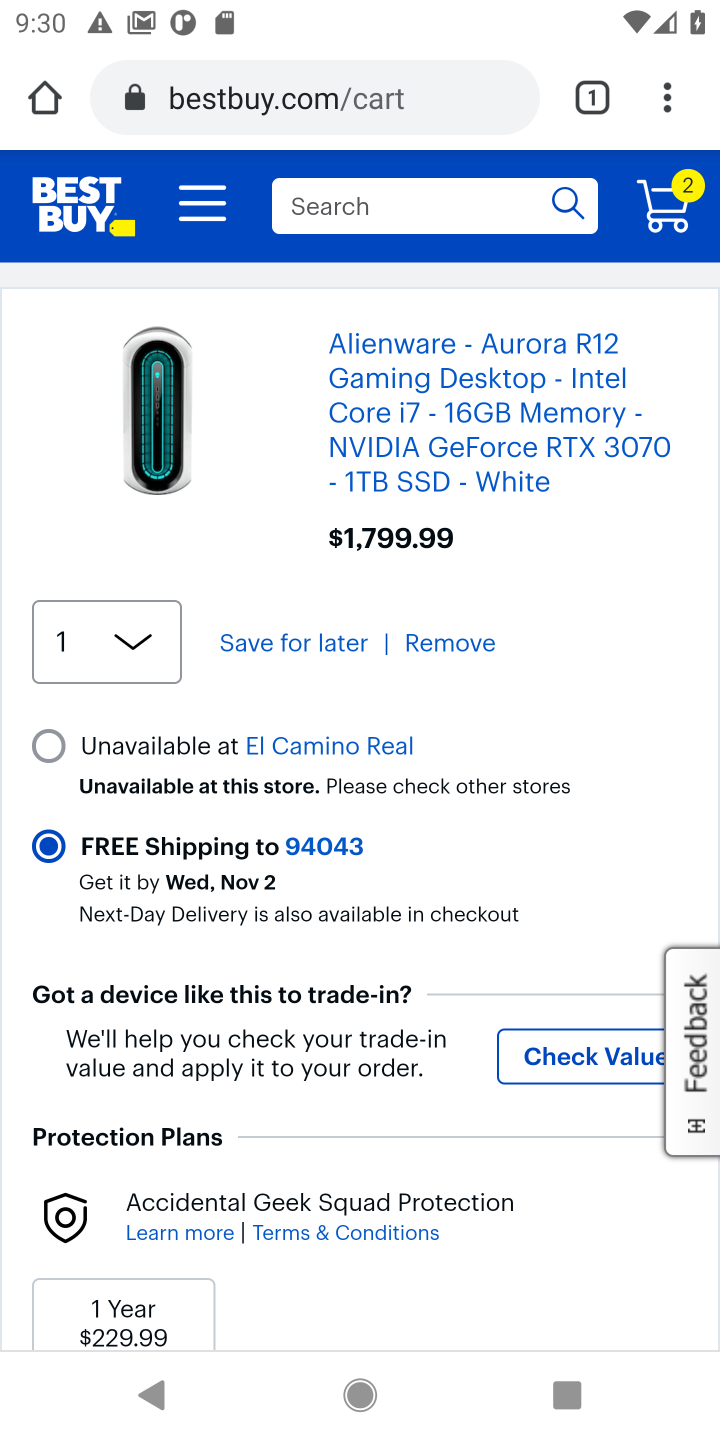
Step 33: click (478, 652)
Your task to perform on an android device: Clear the shopping cart on bestbuy. Image 34: 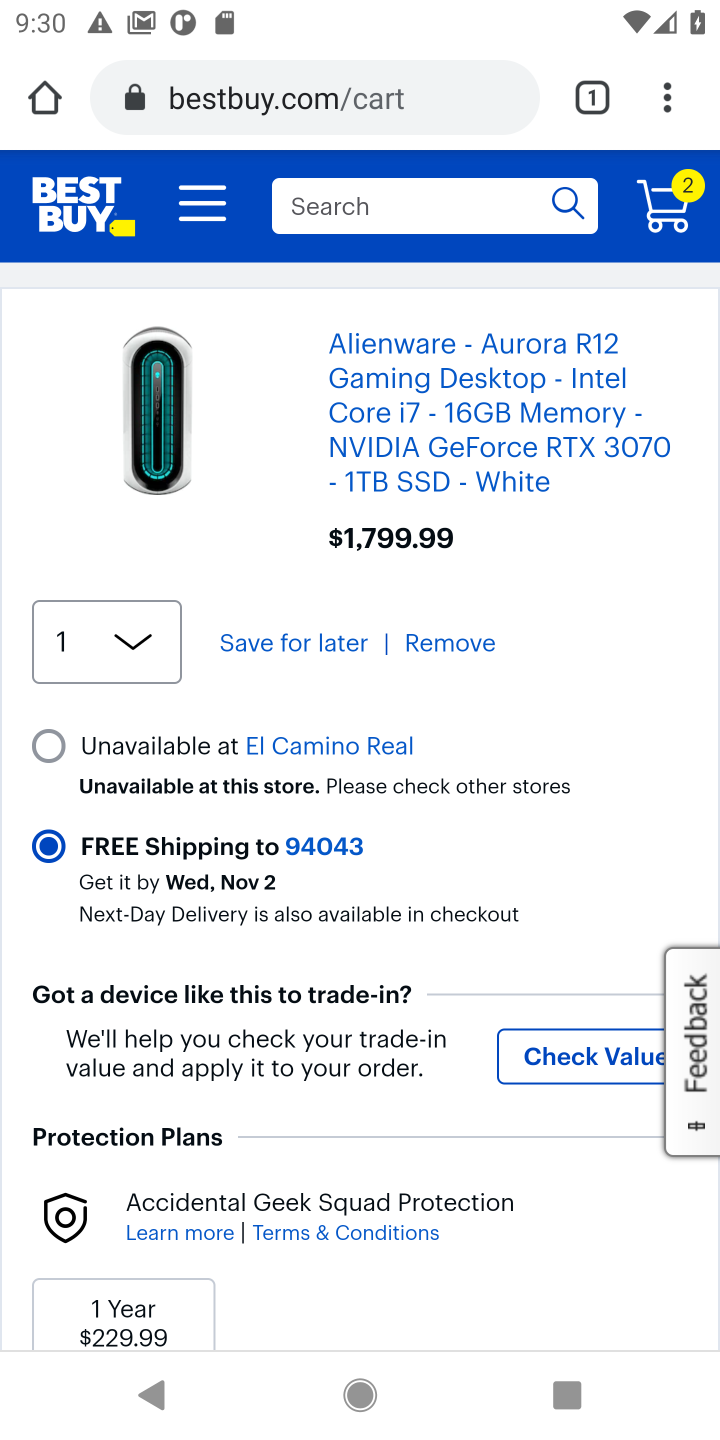
Step 34: click (448, 650)
Your task to perform on an android device: Clear the shopping cart on bestbuy. Image 35: 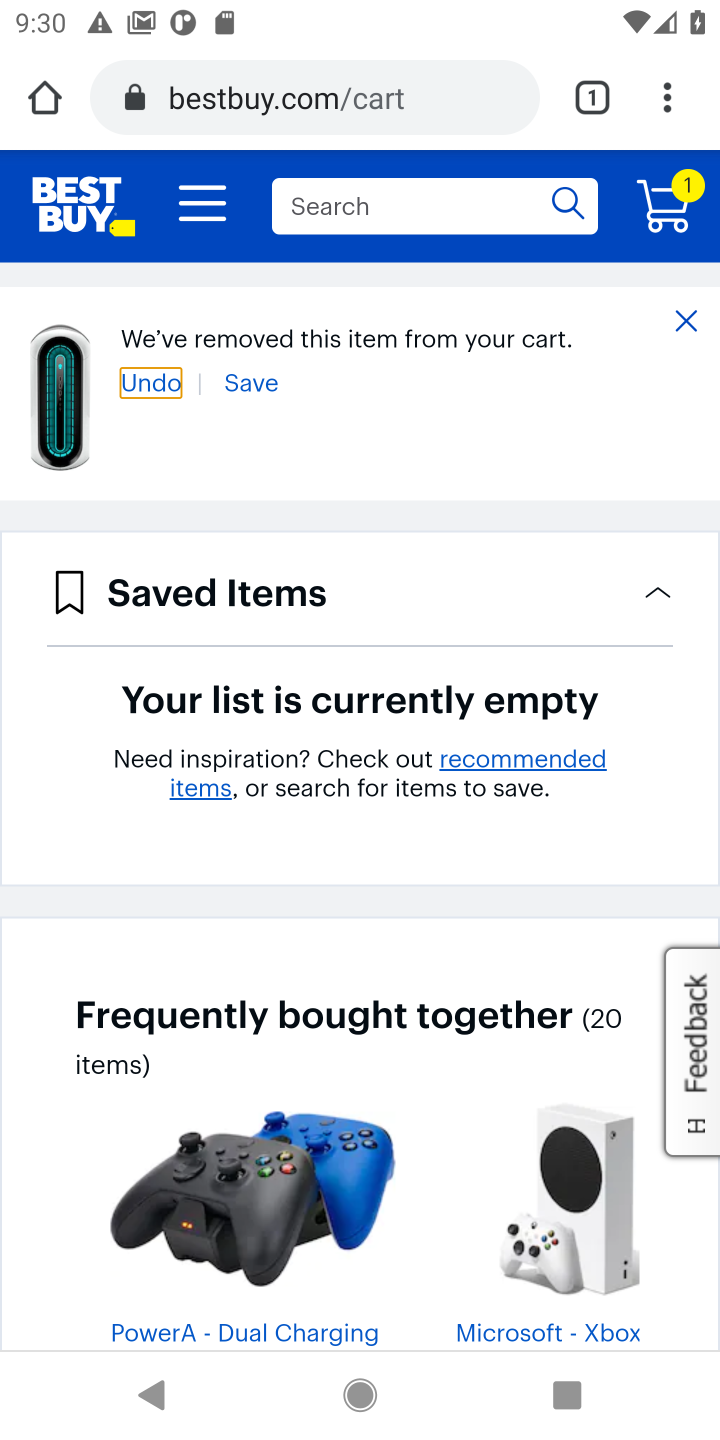
Step 35: click (685, 305)
Your task to perform on an android device: Clear the shopping cart on bestbuy. Image 36: 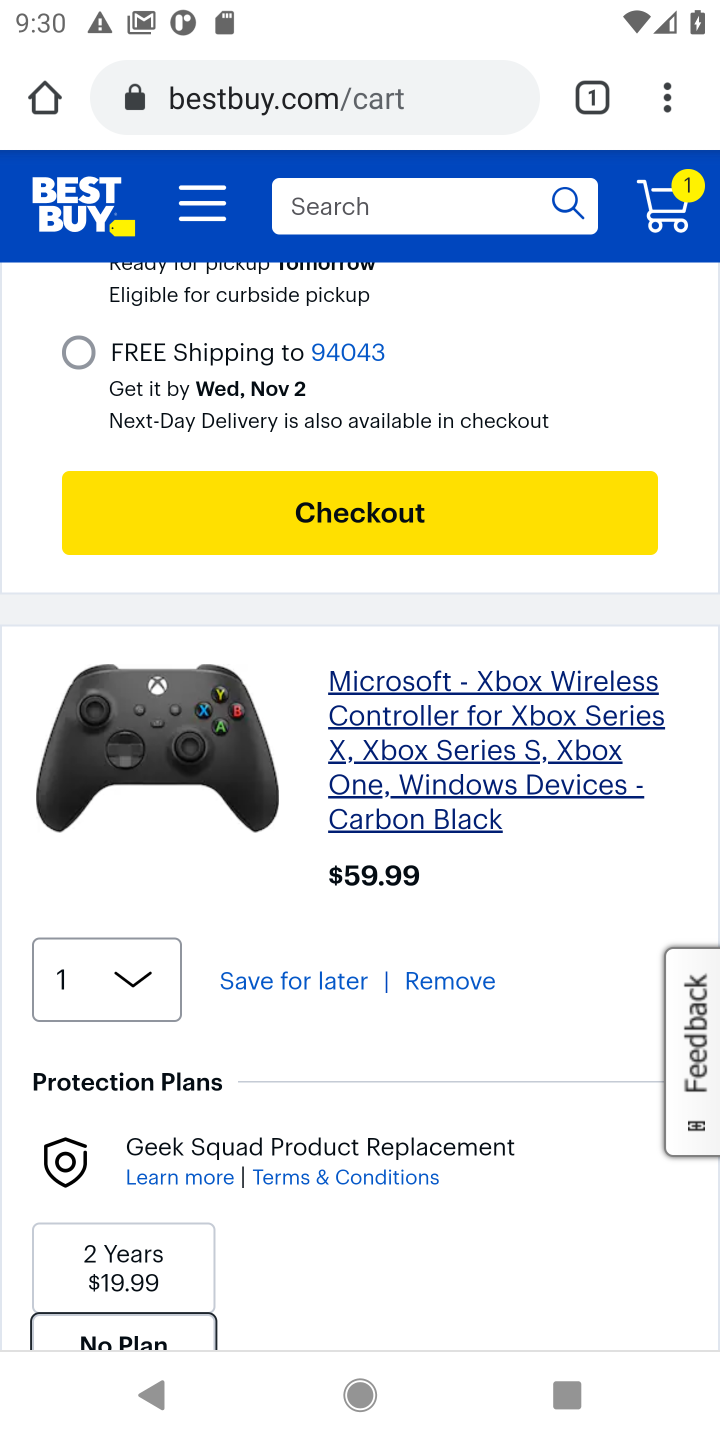
Step 36: drag from (412, 424) to (396, 1438)
Your task to perform on an android device: Clear the shopping cart on bestbuy. Image 37: 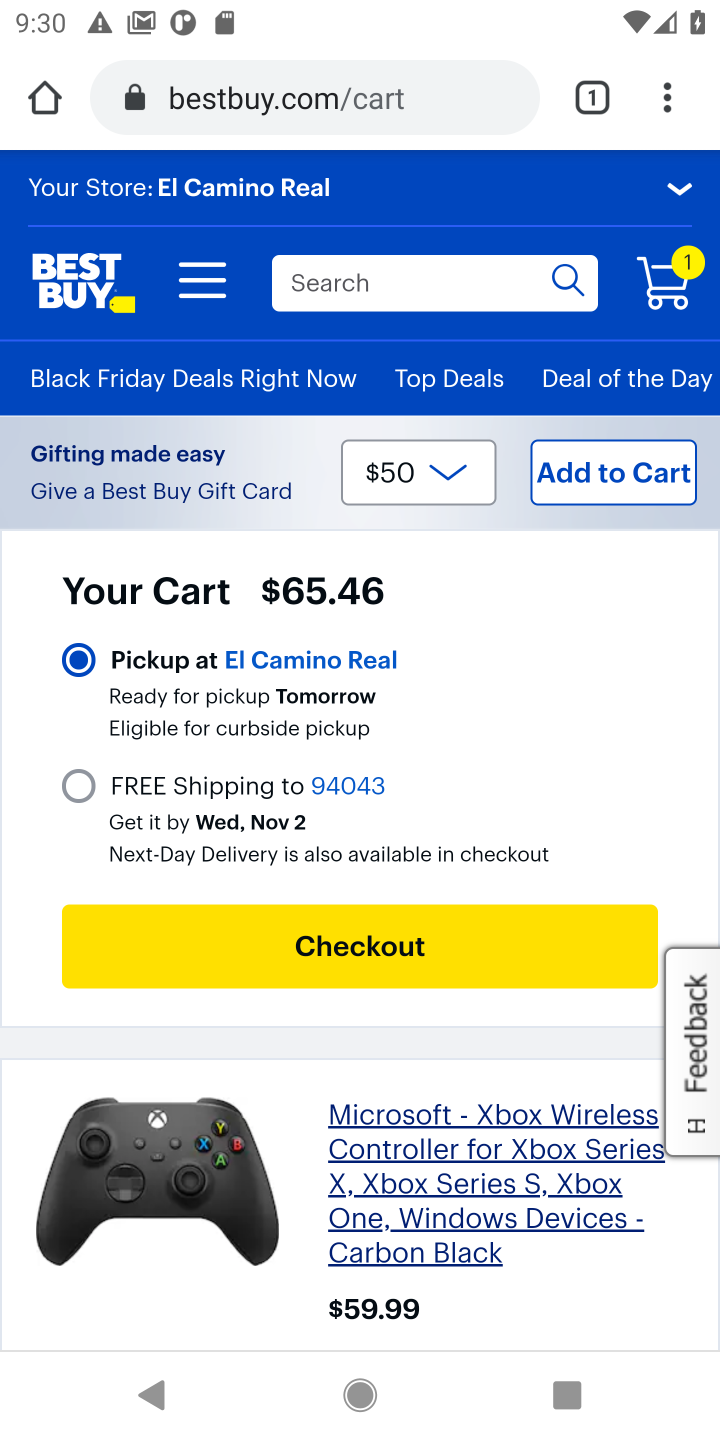
Step 37: drag from (482, 1162) to (484, 438)
Your task to perform on an android device: Clear the shopping cart on bestbuy. Image 38: 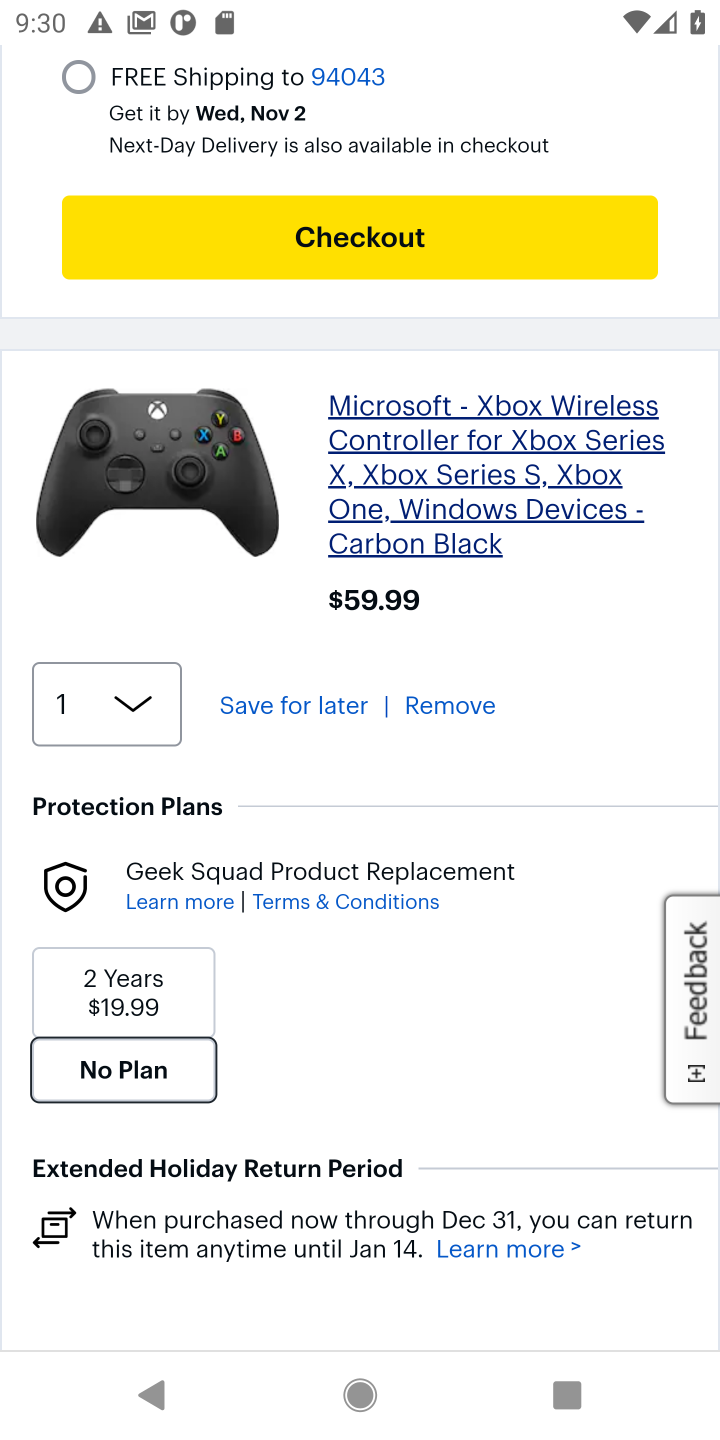
Step 38: drag from (500, 936) to (572, 391)
Your task to perform on an android device: Clear the shopping cart on bestbuy. Image 39: 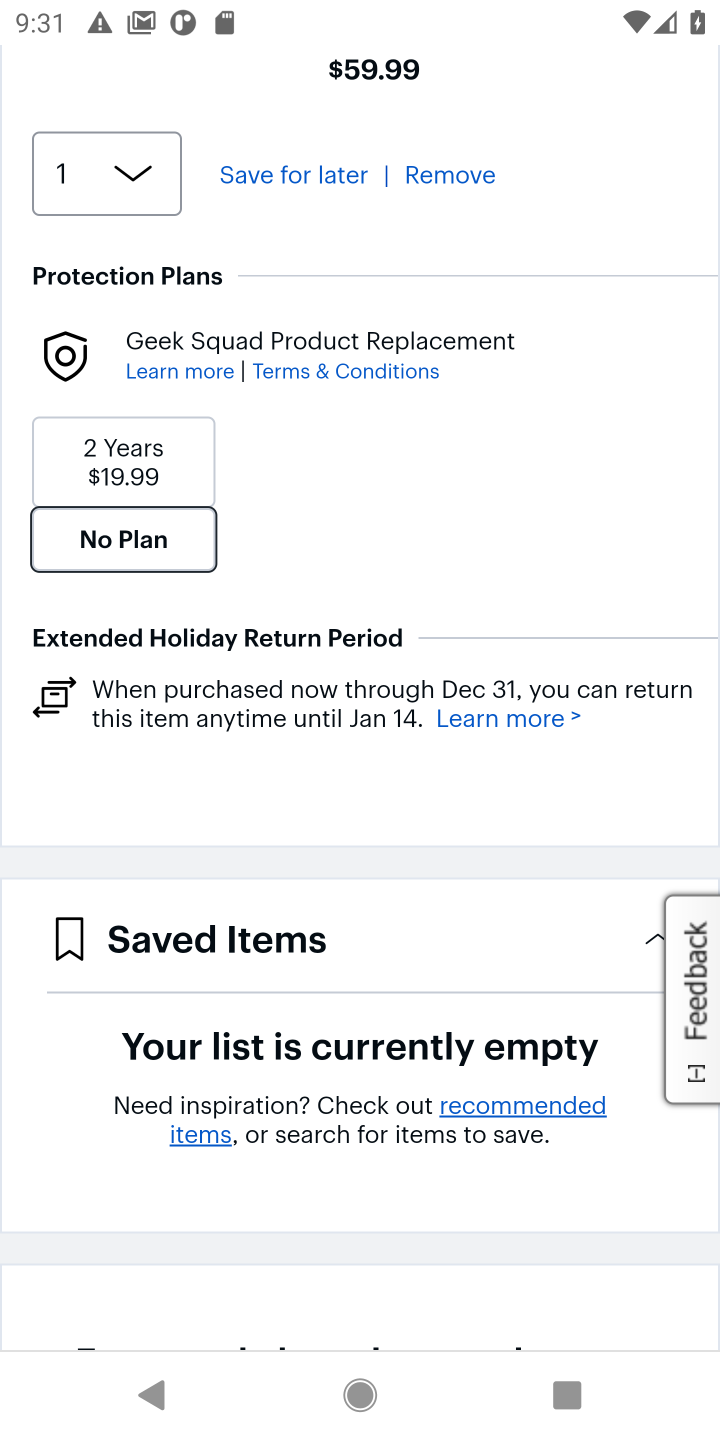
Step 39: drag from (428, 891) to (549, 401)
Your task to perform on an android device: Clear the shopping cart on bestbuy. Image 40: 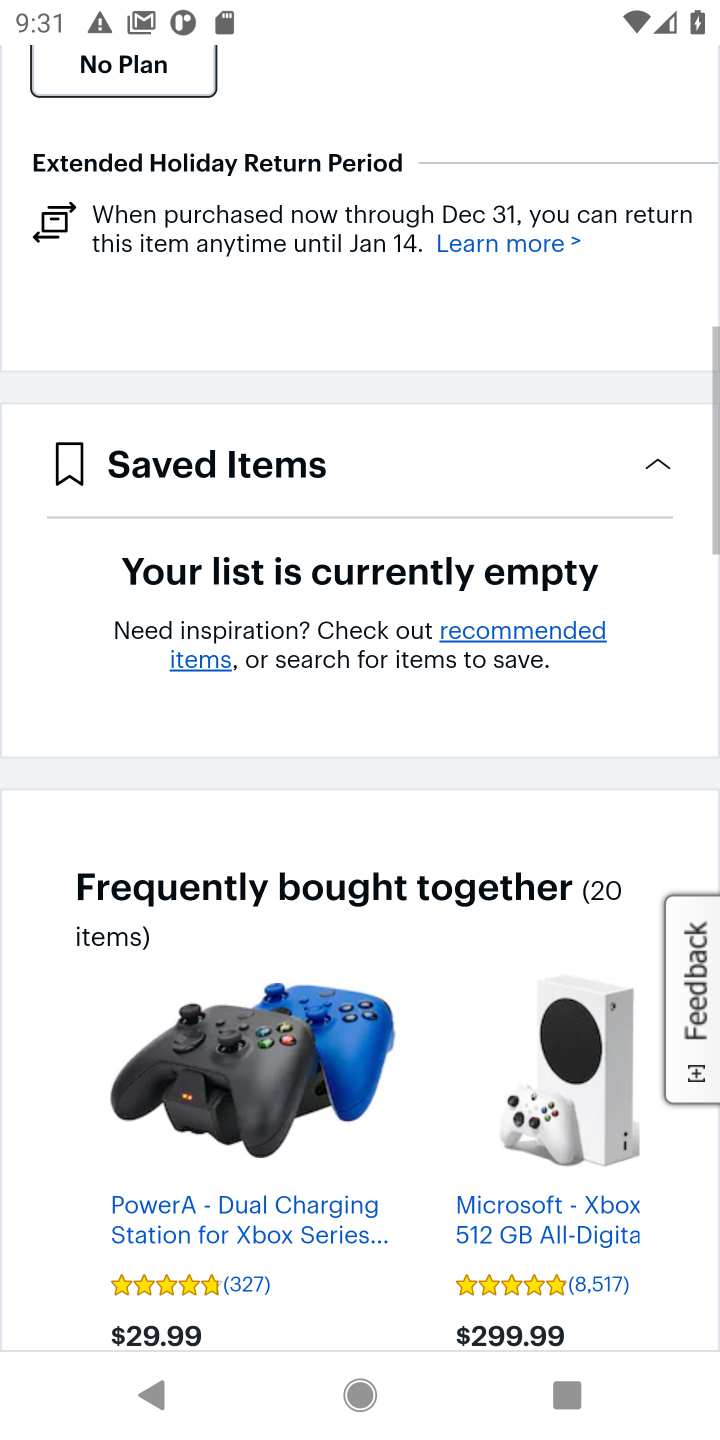
Step 40: drag from (422, 992) to (351, 1428)
Your task to perform on an android device: Clear the shopping cart on bestbuy. Image 41: 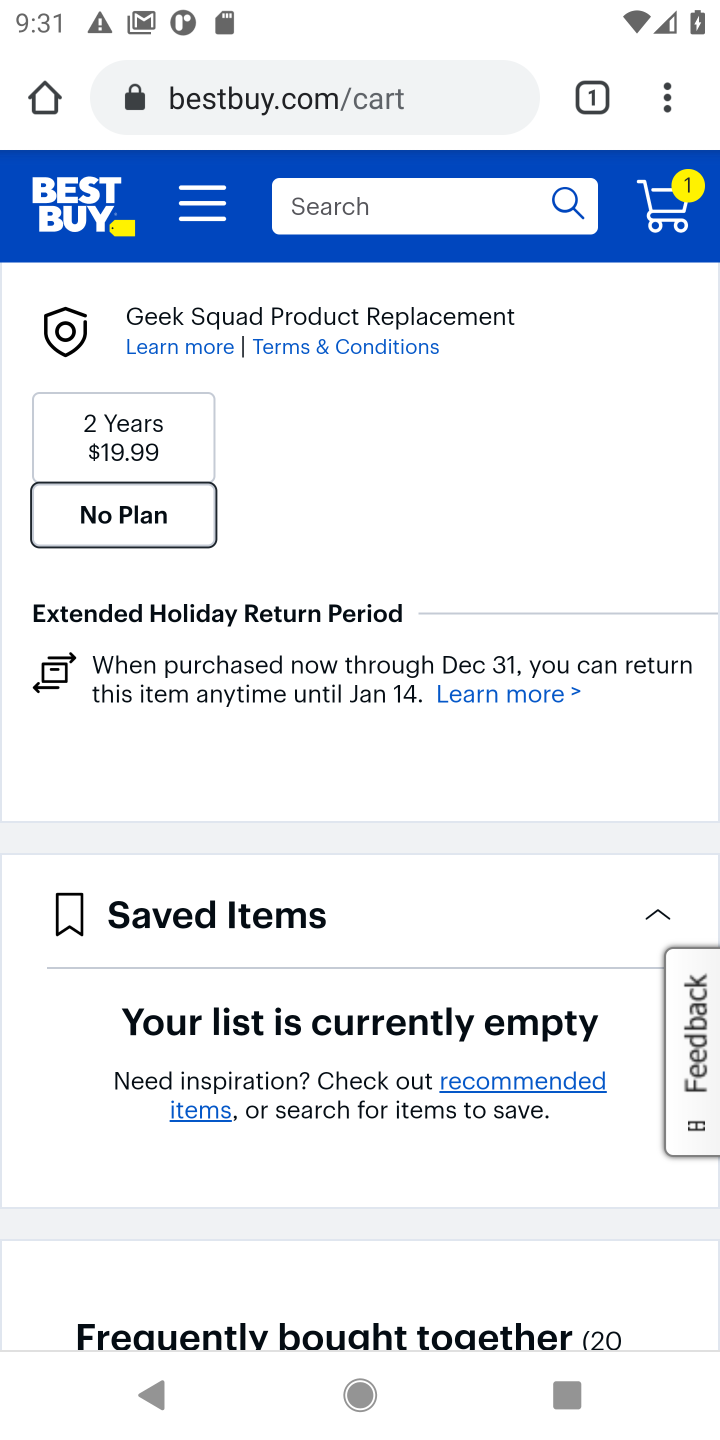
Step 41: click (671, 185)
Your task to perform on an android device: Clear the shopping cart on bestbuy. Image 42: 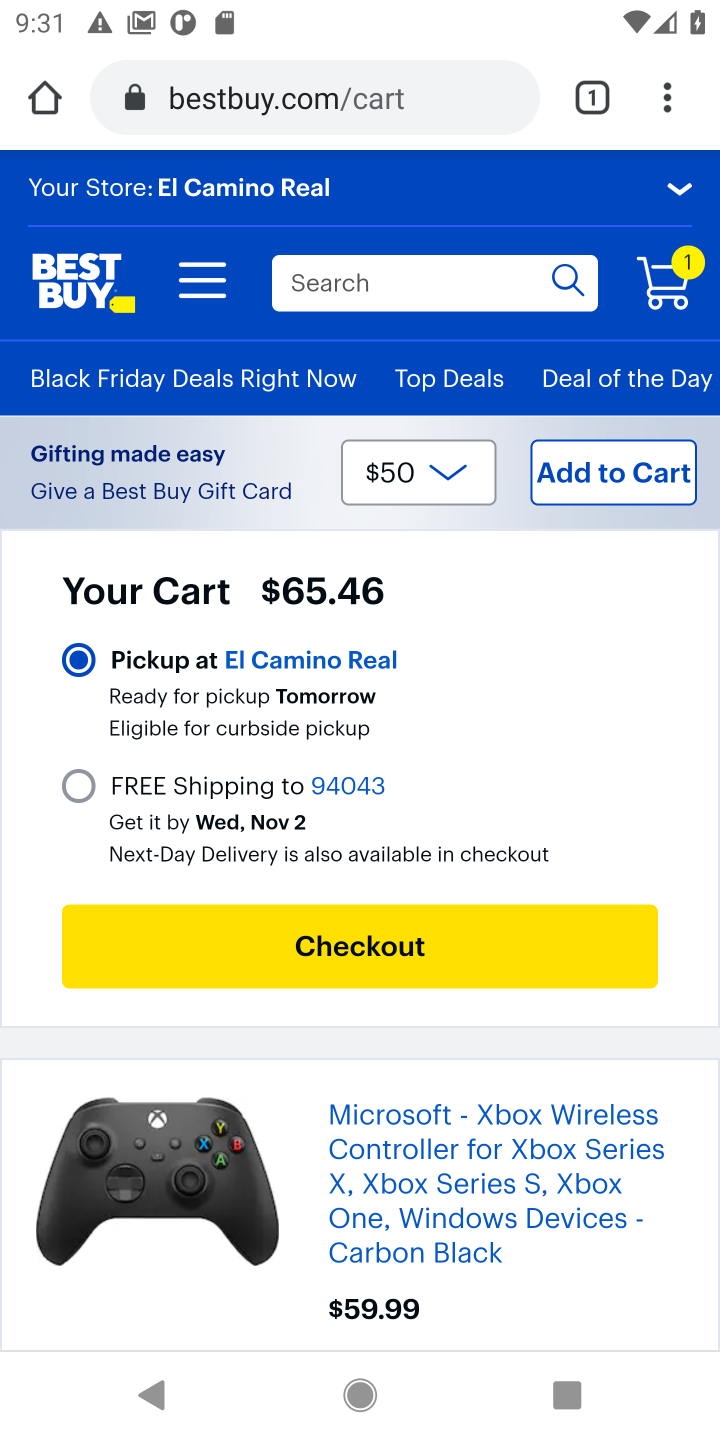
Step 42: drag from (418, 639) to (434, 1433)
Your task to perform on an android device: Clear the shopping cart on bestbuy. Image 43: 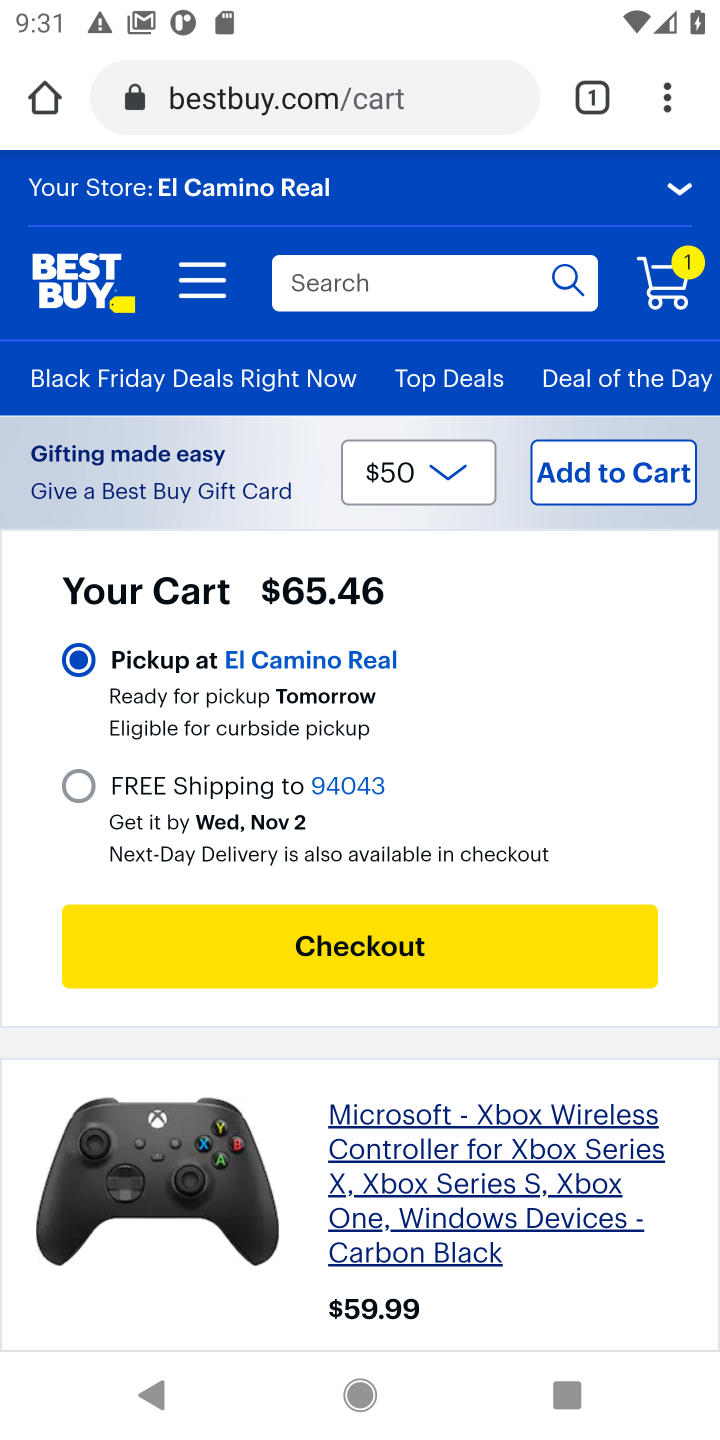
Step 43: drag from (518, 516) to (551, 1110)
Your task to perform on an android device: Clear the shopping cart on bestbuy. Image 44: 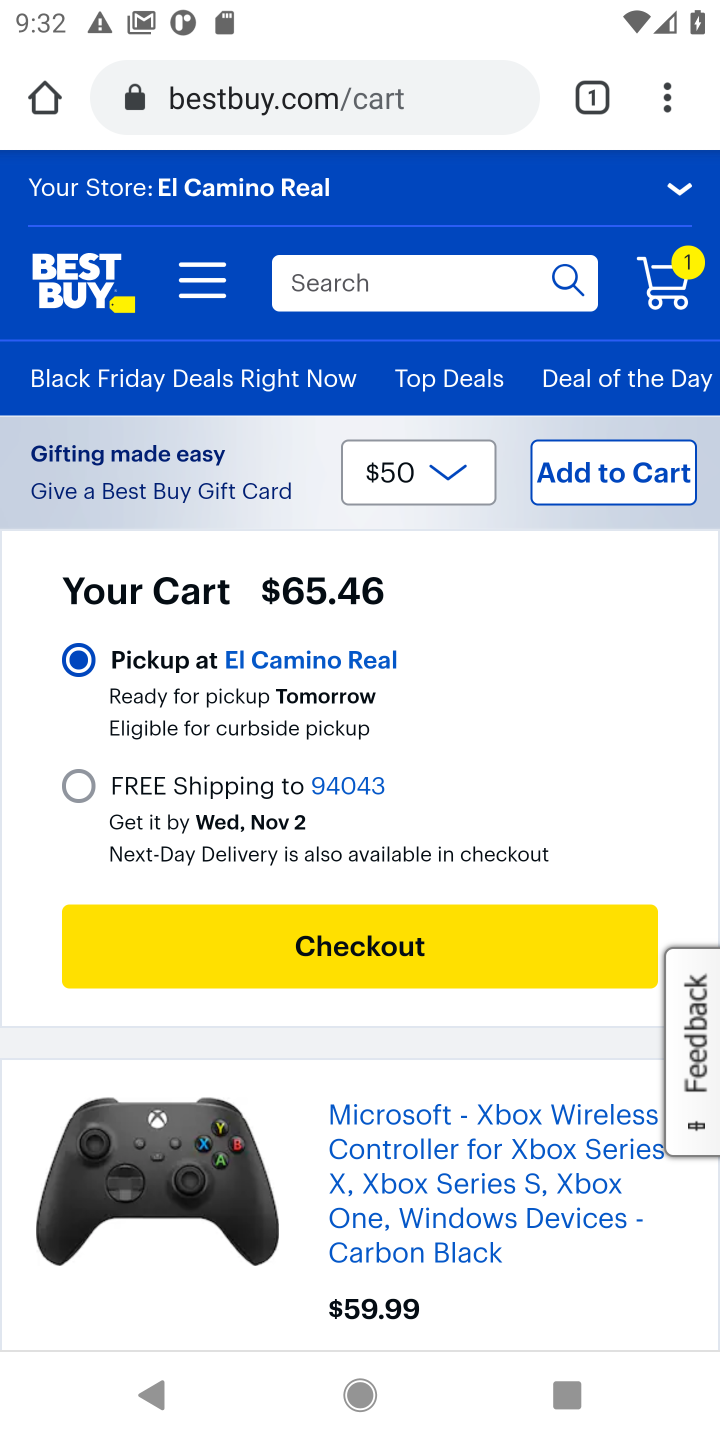
Step 44: click (661, 296)
Your task to perform on an android device: Clear the shopping cart on bestbuy. Image 45: 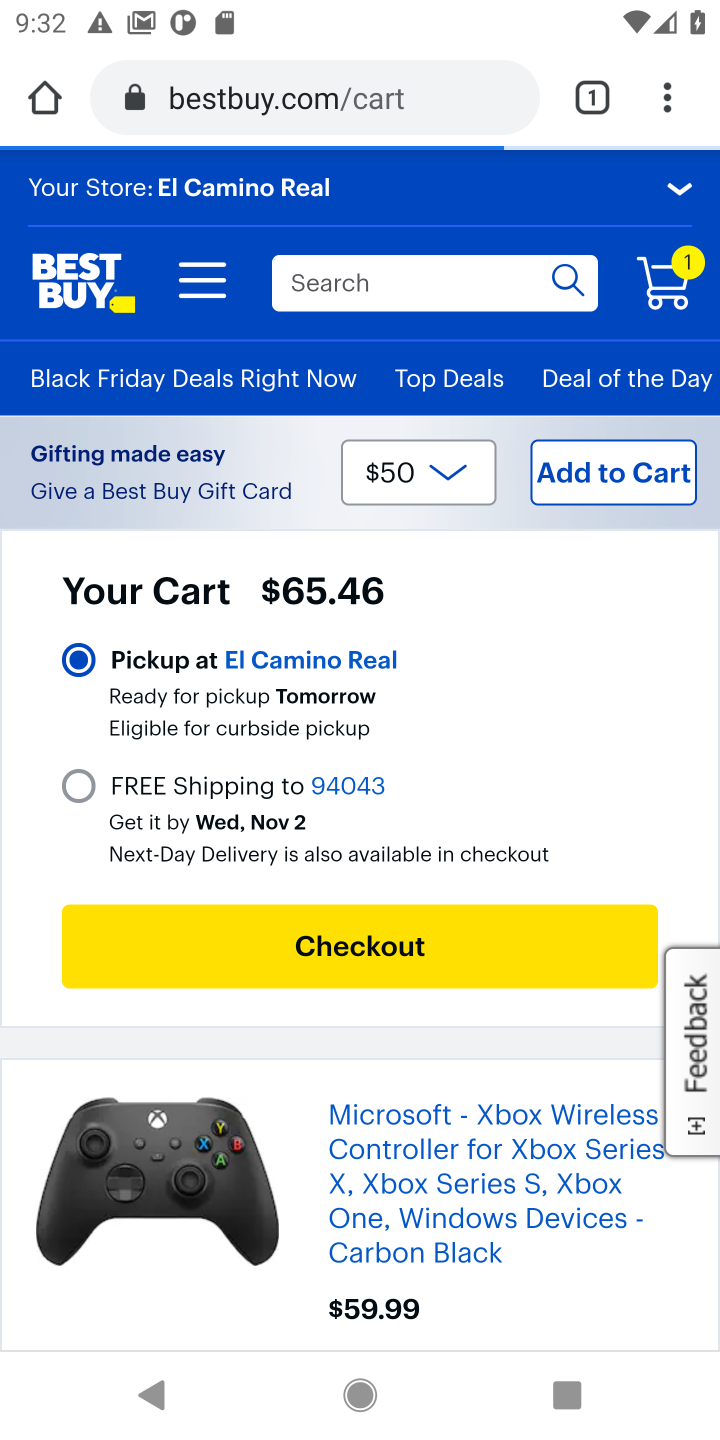
Step 45: click (441, 474)
Your task to perform on an android device: Clear the shopping cart on bestbuy. Image 46: 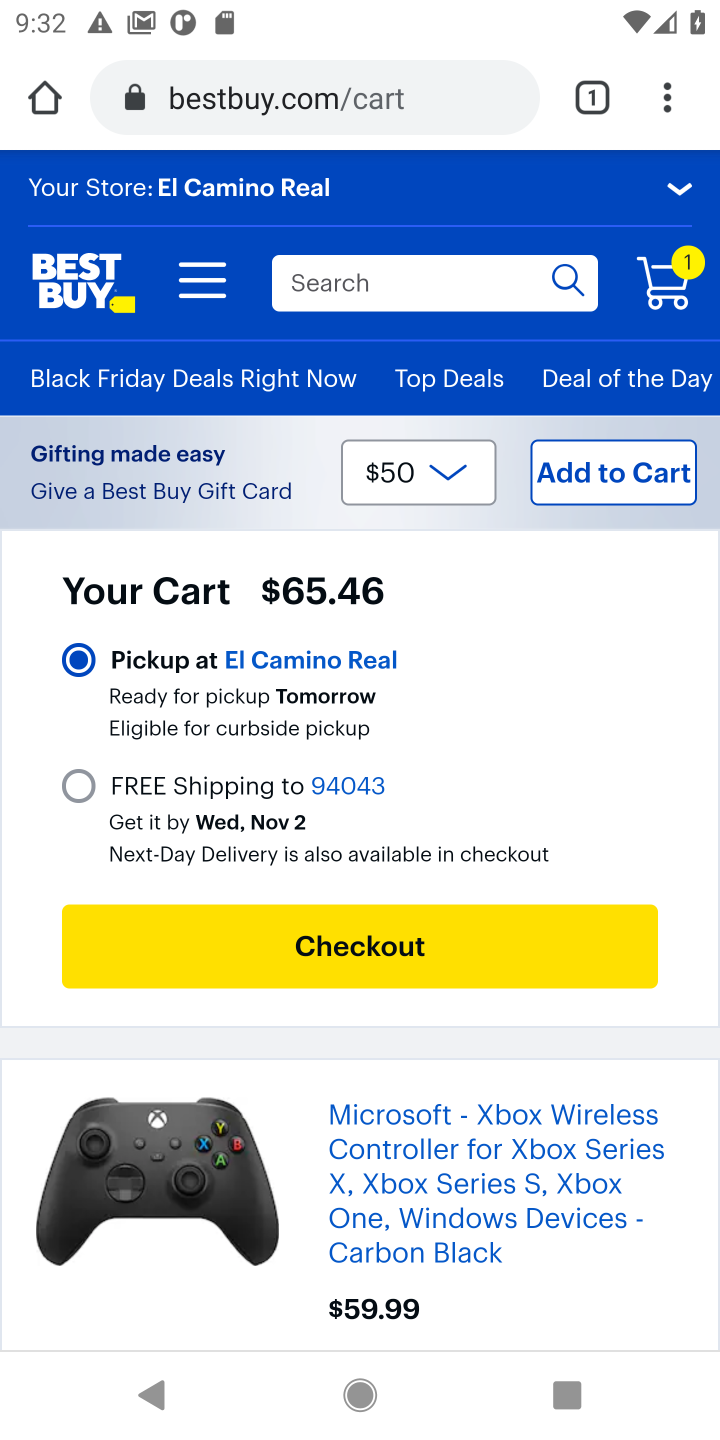
Step 46: drag from (337, 1118) to (406, 571)
Your task to perform on an android device: Clear the shopping cart on bestbuy. Image 47: 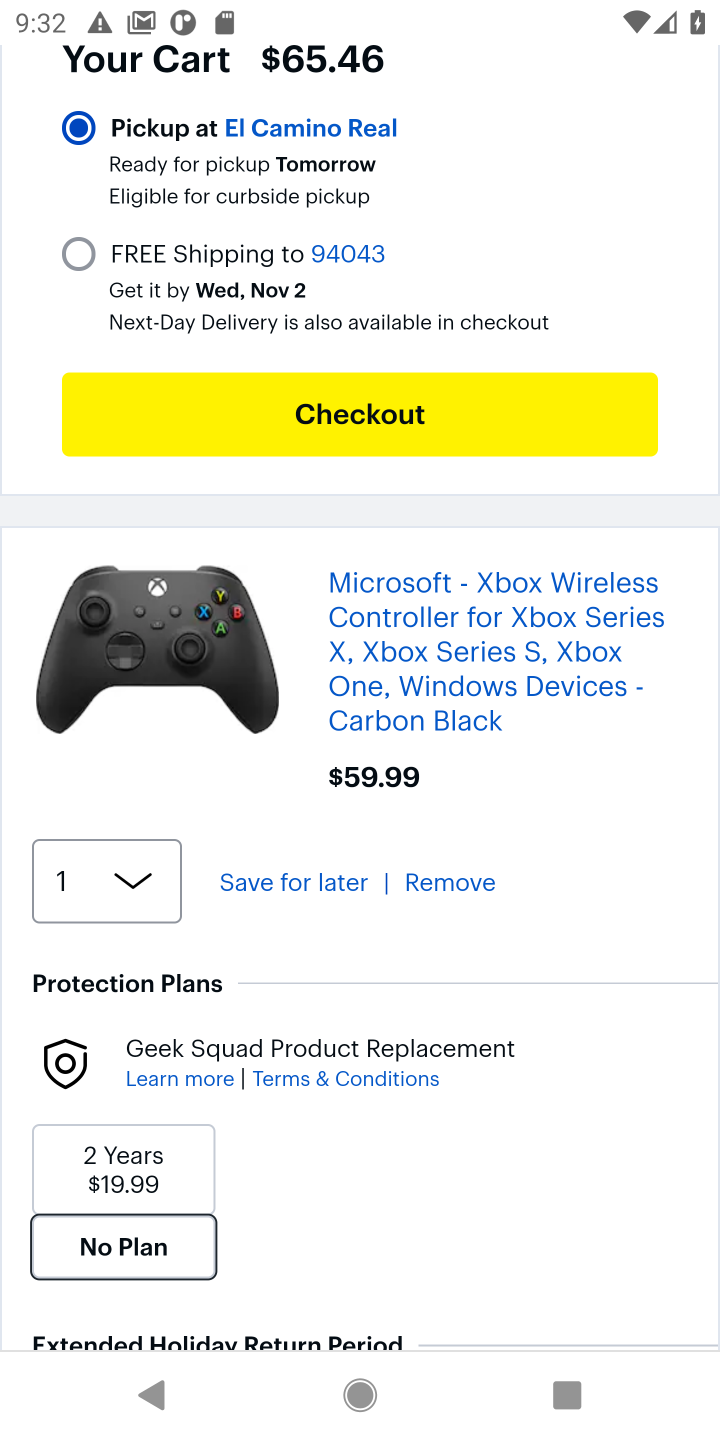
Step 47: click (436, 868)
Your task to perform on an android device: Clear the shopping cart on bestbuy. Image 48: 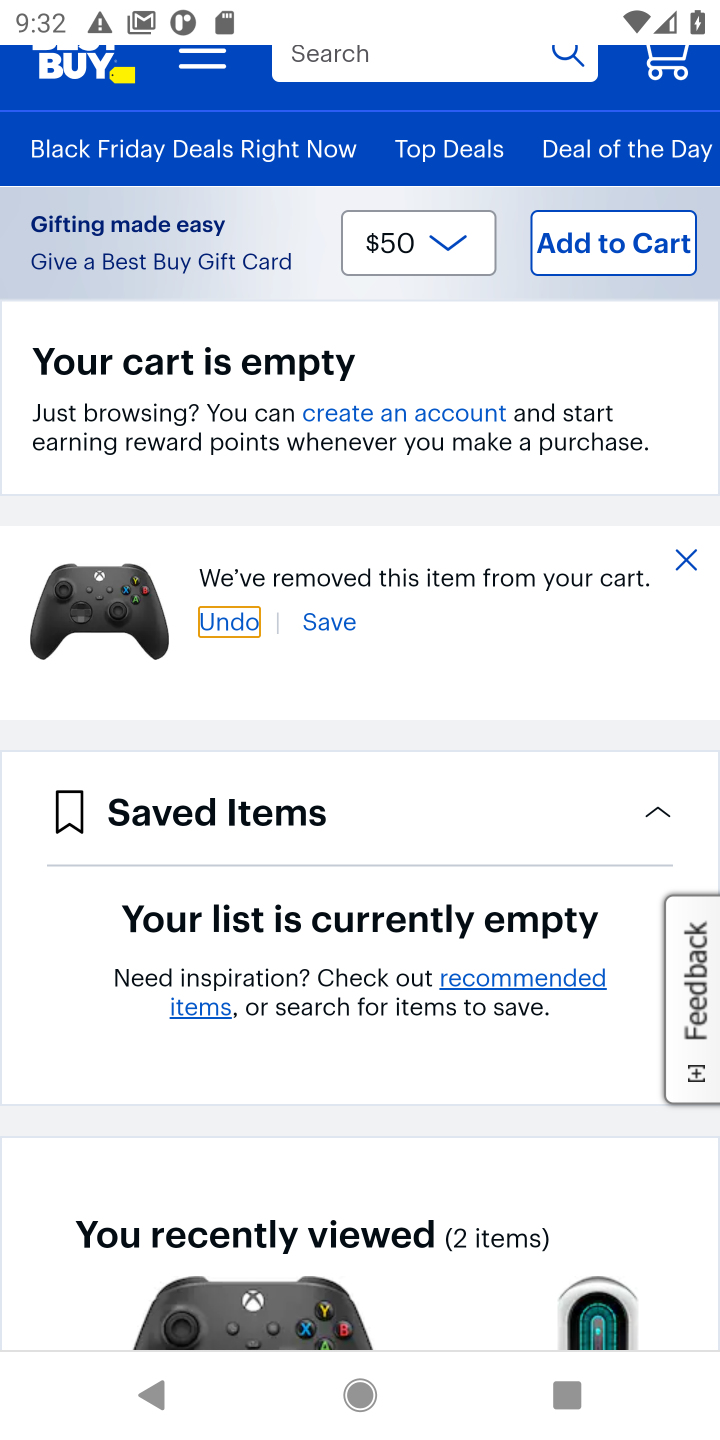
Step 48: click (682, 551)
Your task to perform on an android device: Clear the shopping cart on bestbuy. Image 49: 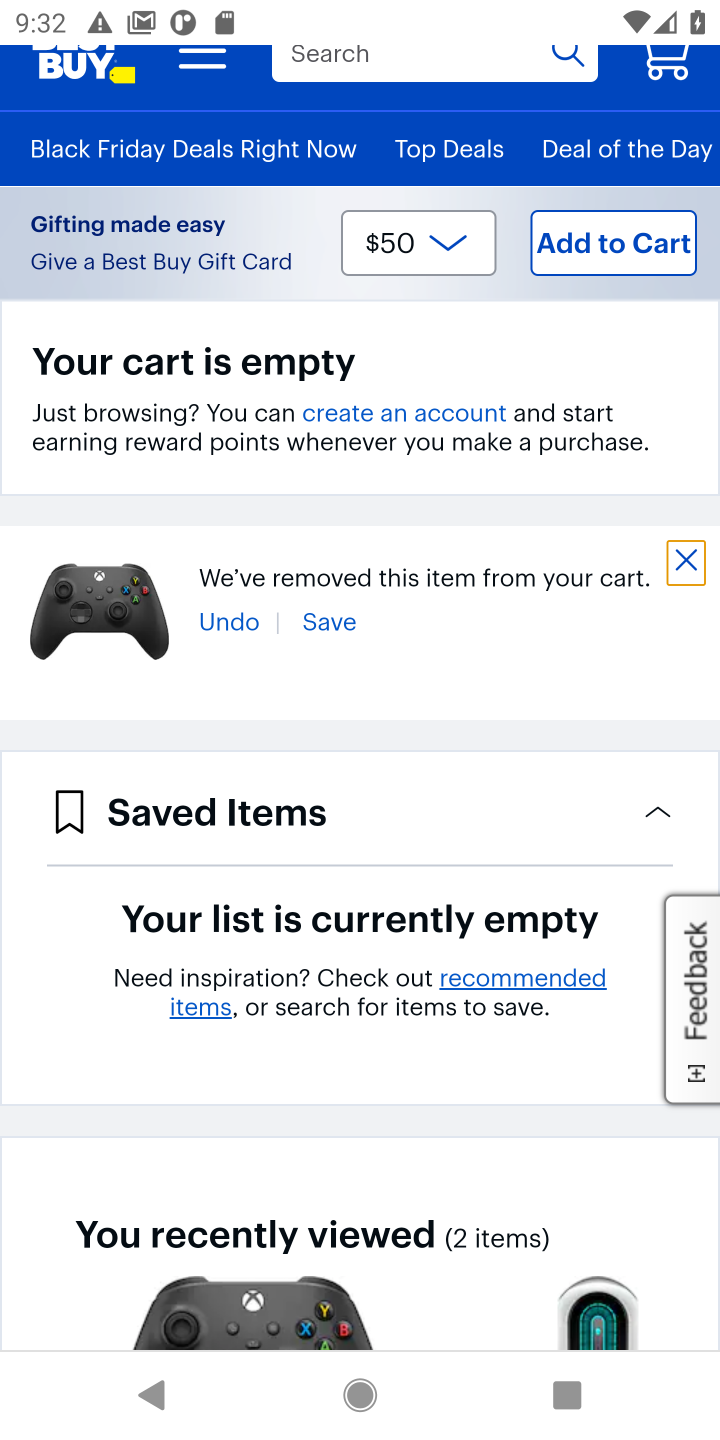
Step 49: click (685, 560)
Your task to perform on an android device: Clear the shopping cart on bestbuy. Image 50: 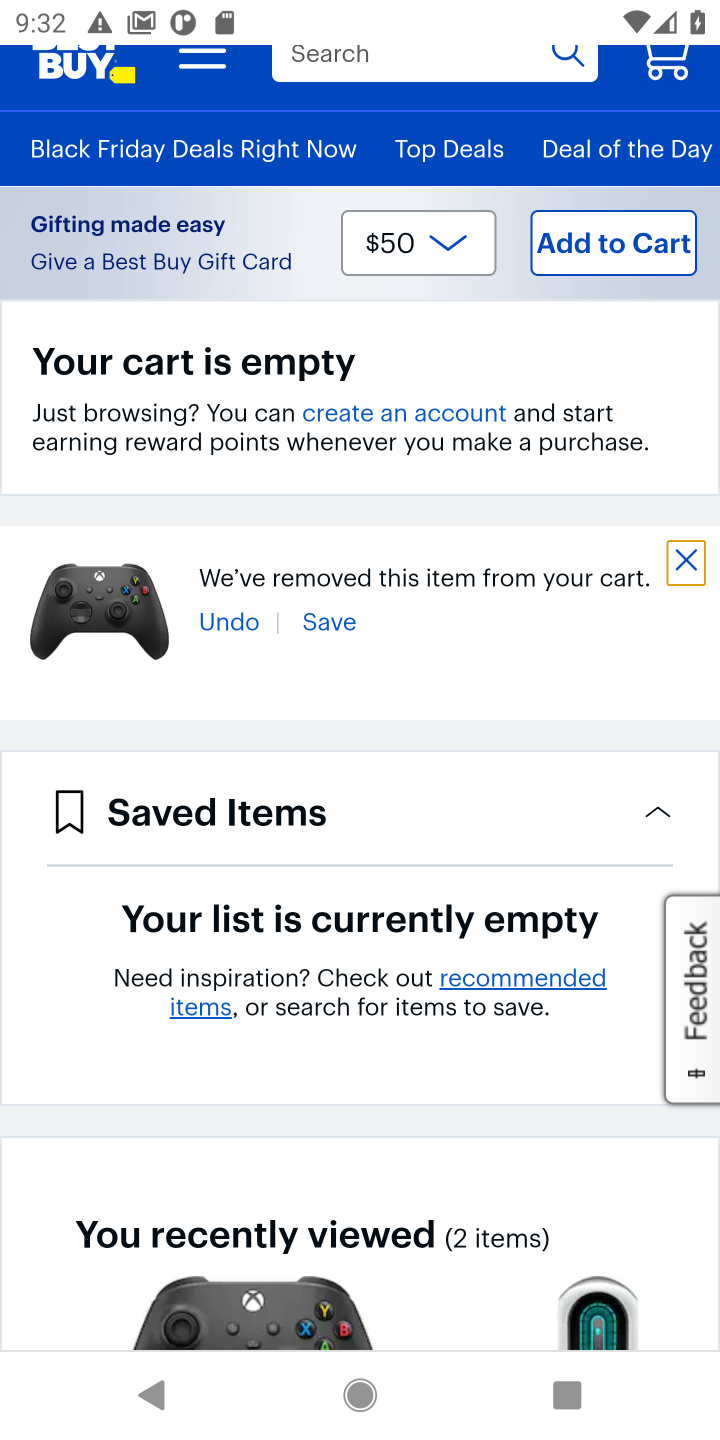
Step 50: drag from (409, 607) to (331, 1236)
Your task to perform on an android device: Clear the shopping cart on bestbuy. Image 51: 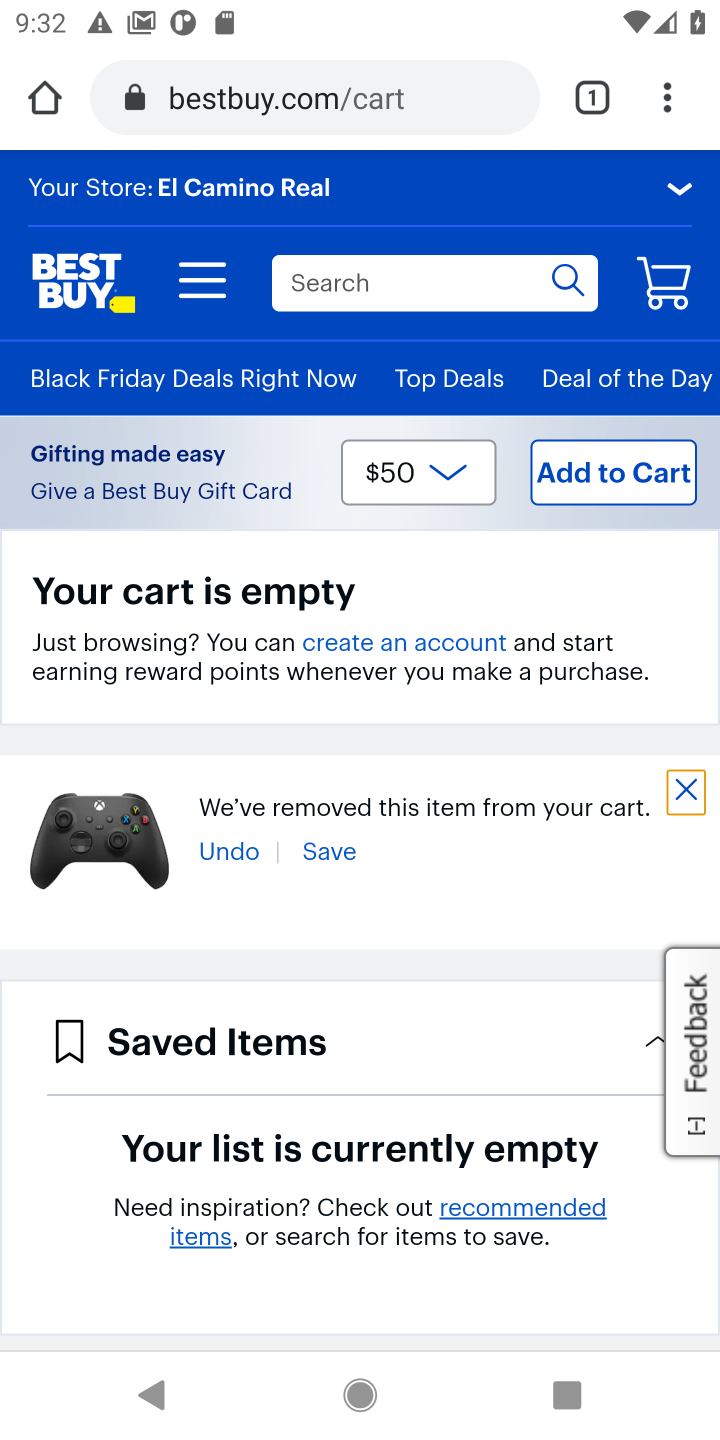
Step 51: click (679, 779)
Your task to perform on an android device: Clear the shopping cart on bestbuy. Image 52: 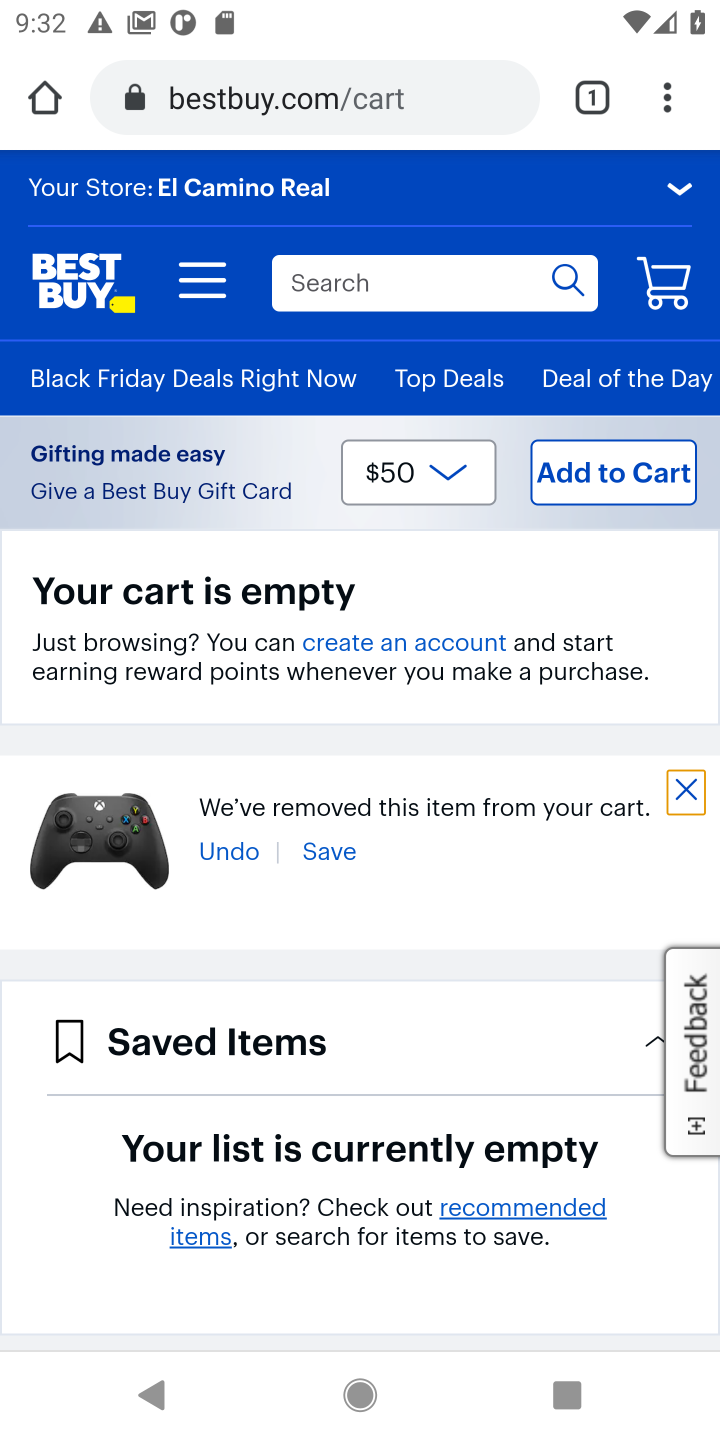
Step 52: task complete